Your task to perform on an android device: Where can I buy a nice beach umbrella? Image 0: 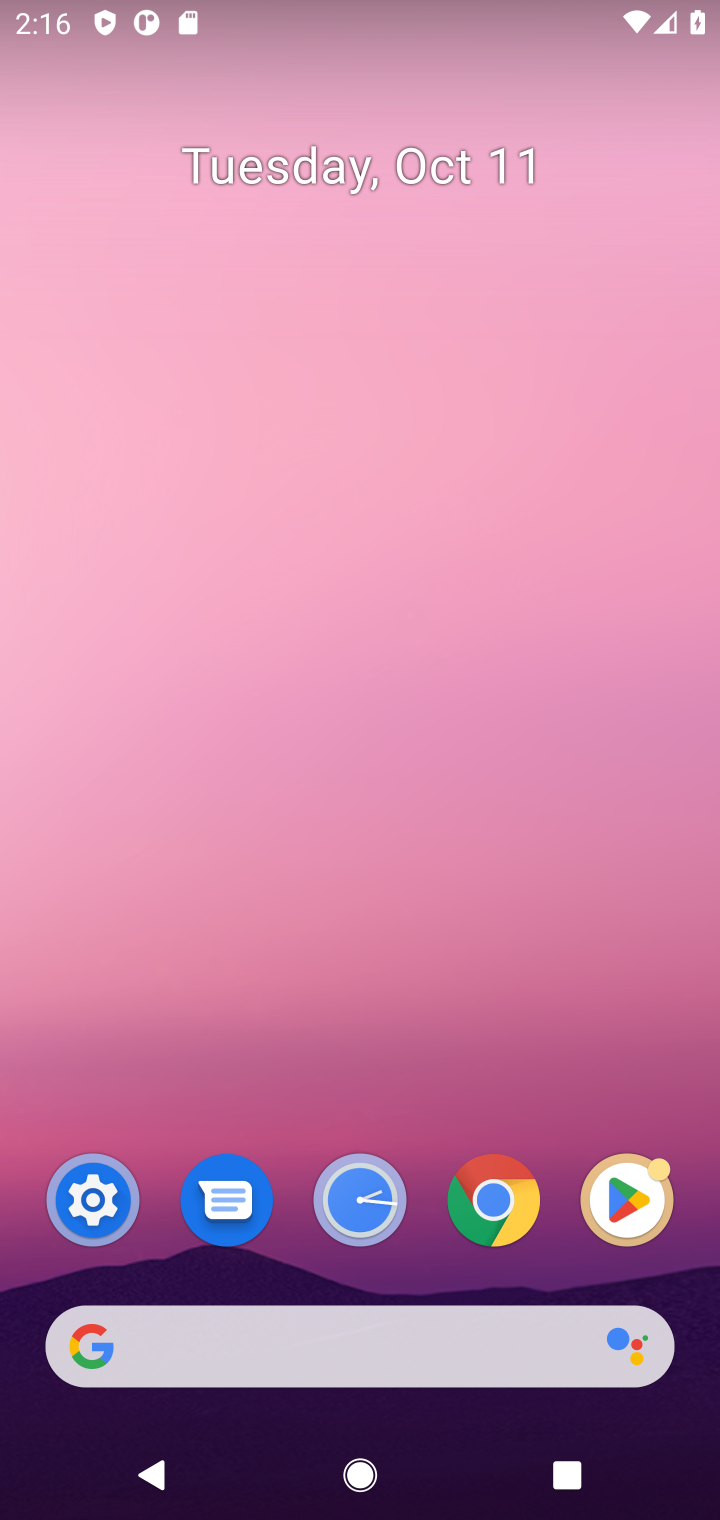
Step 0: click (495, 1220)
Your task to perform on an android device: Where can I buy a nice beach umbrella? Image 1: 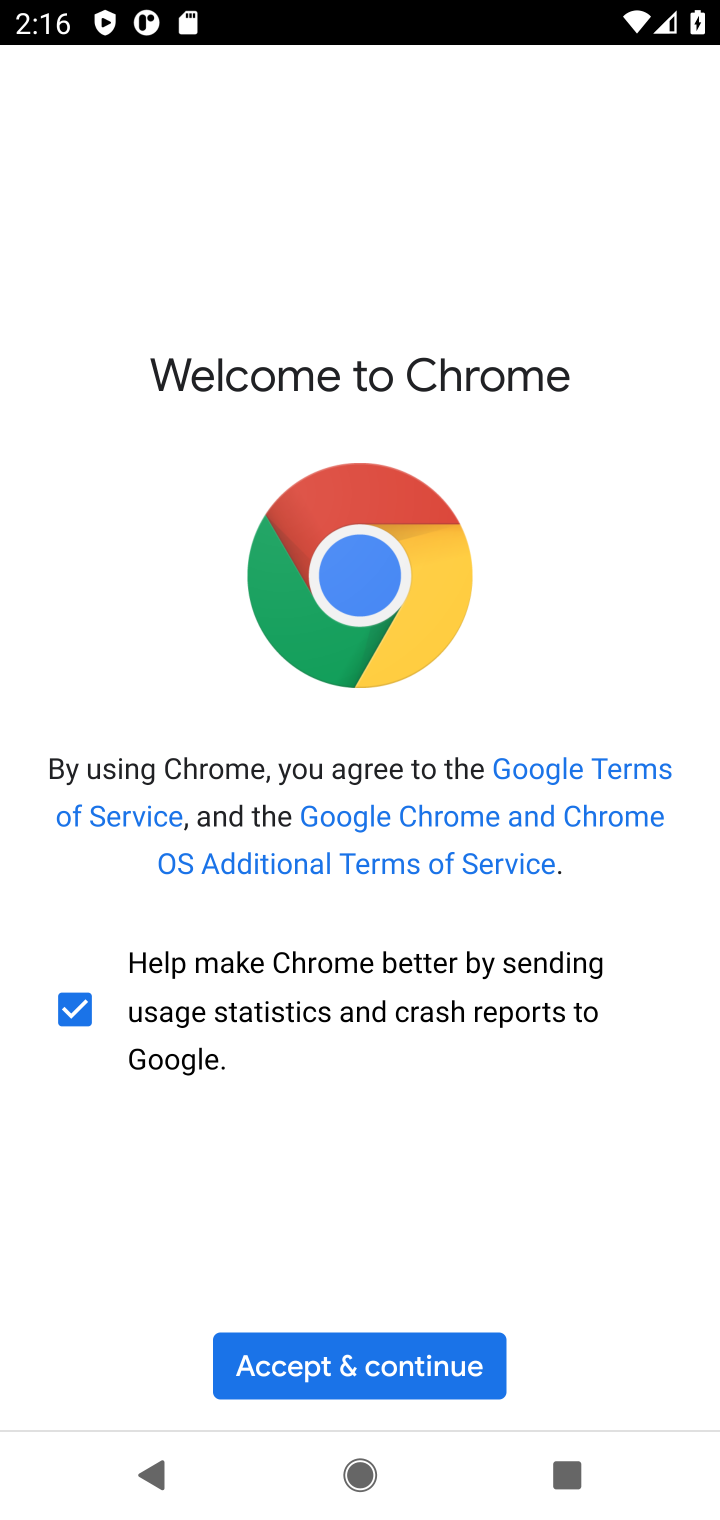
Step 1: click (351, 1371)
Your task to perform on an android device: Where can I buy a nice beach umbrella? Image 2: 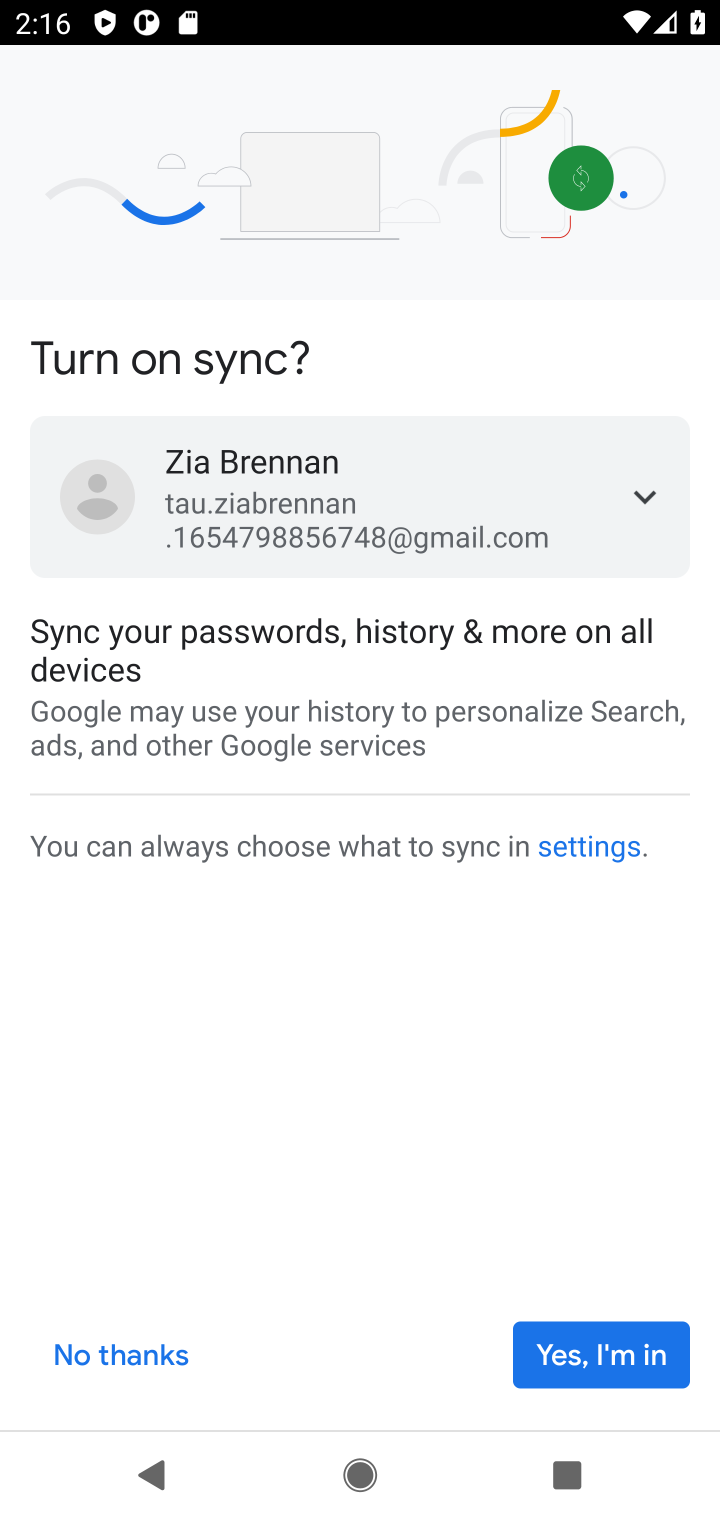
Step 2: click (623, 1330)
Your task to perform on an android device: Where can I buy a nice beach umbrella? Image 3: 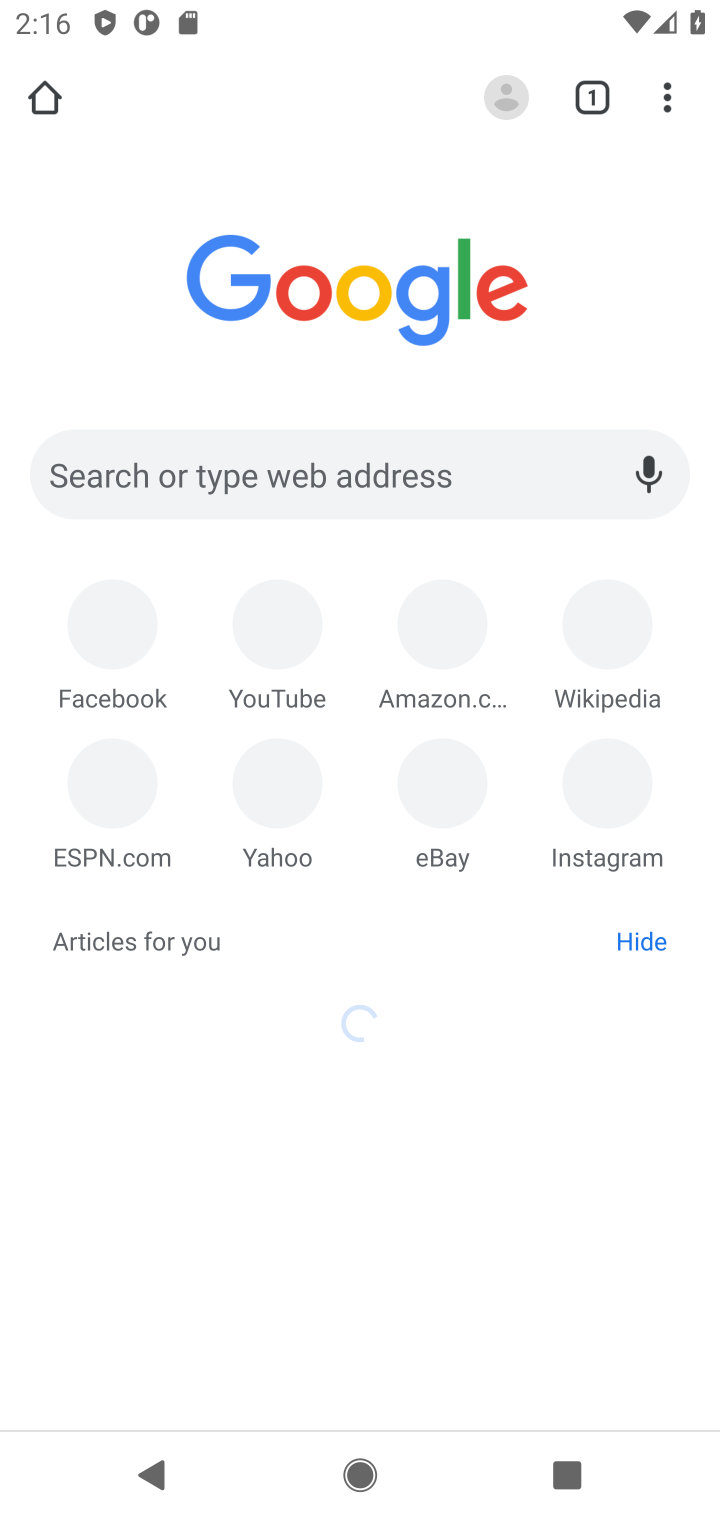
Step 3: click (276, 466)
Your task to perform on an android device: Where can I buy a nice beach umbrella? Image 4: 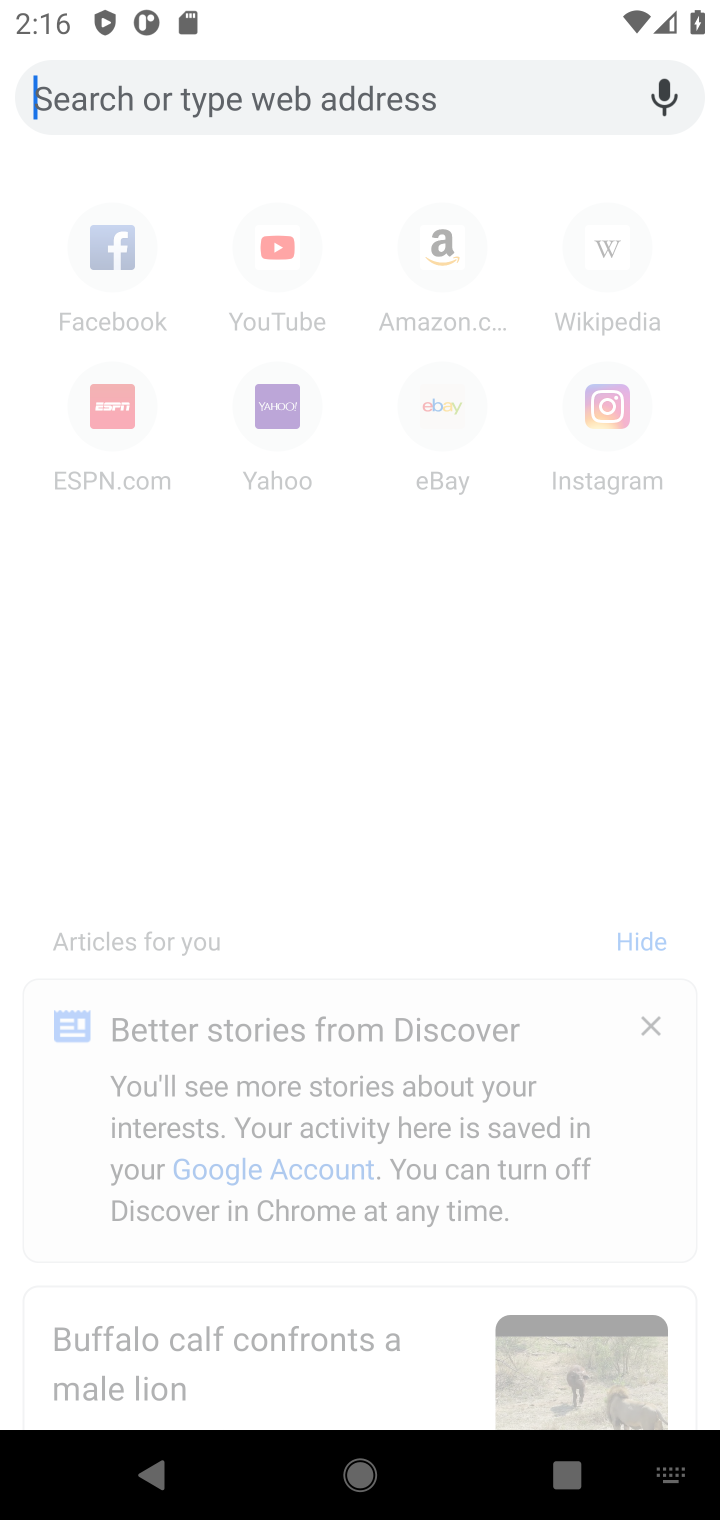
Step 4: type "Where can I buy a nice beach umbrella?"
Your task to perform on an android device: Where can I buy a nice beach umbrella? Image 5: 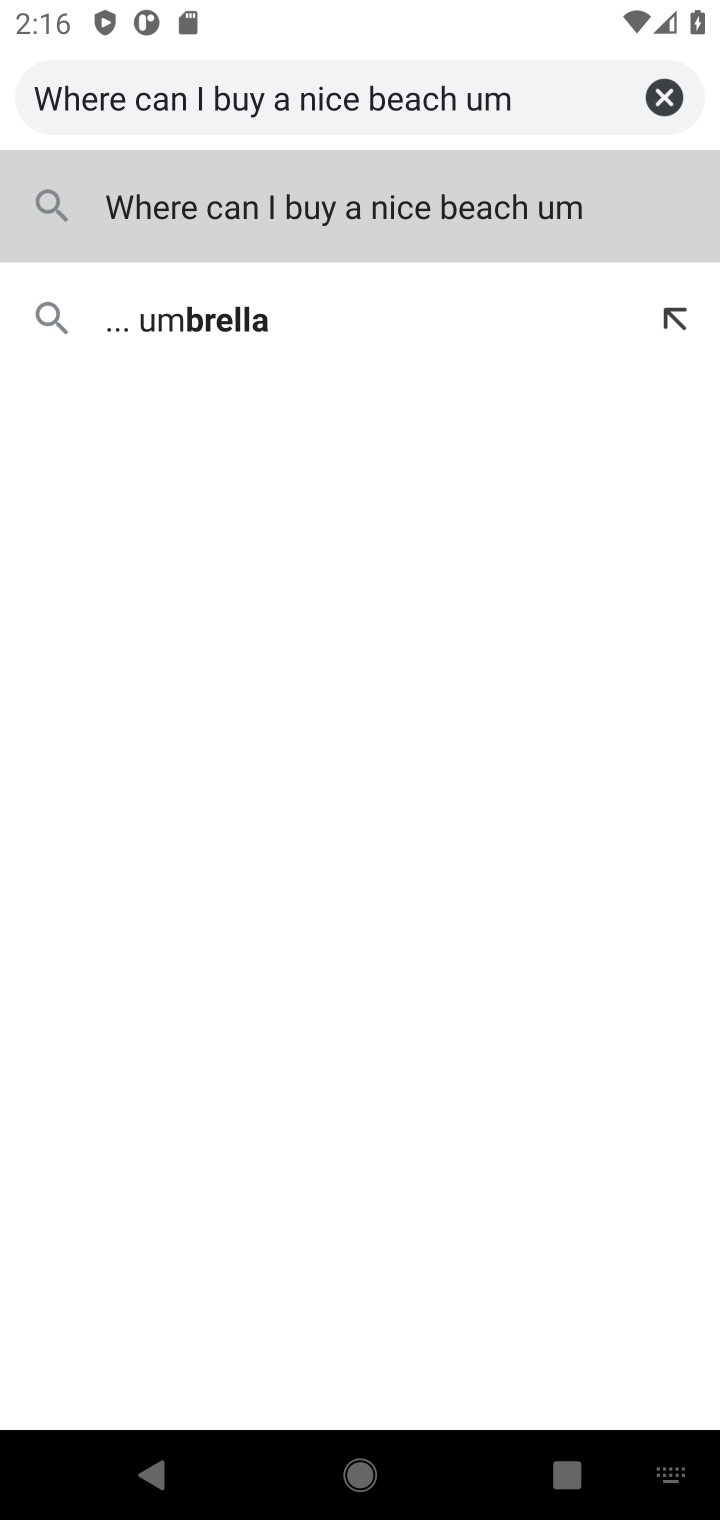
Step 5: type ""
Your task to perform on an android device: Where can I buy a nice beach umbrella? Image 6: 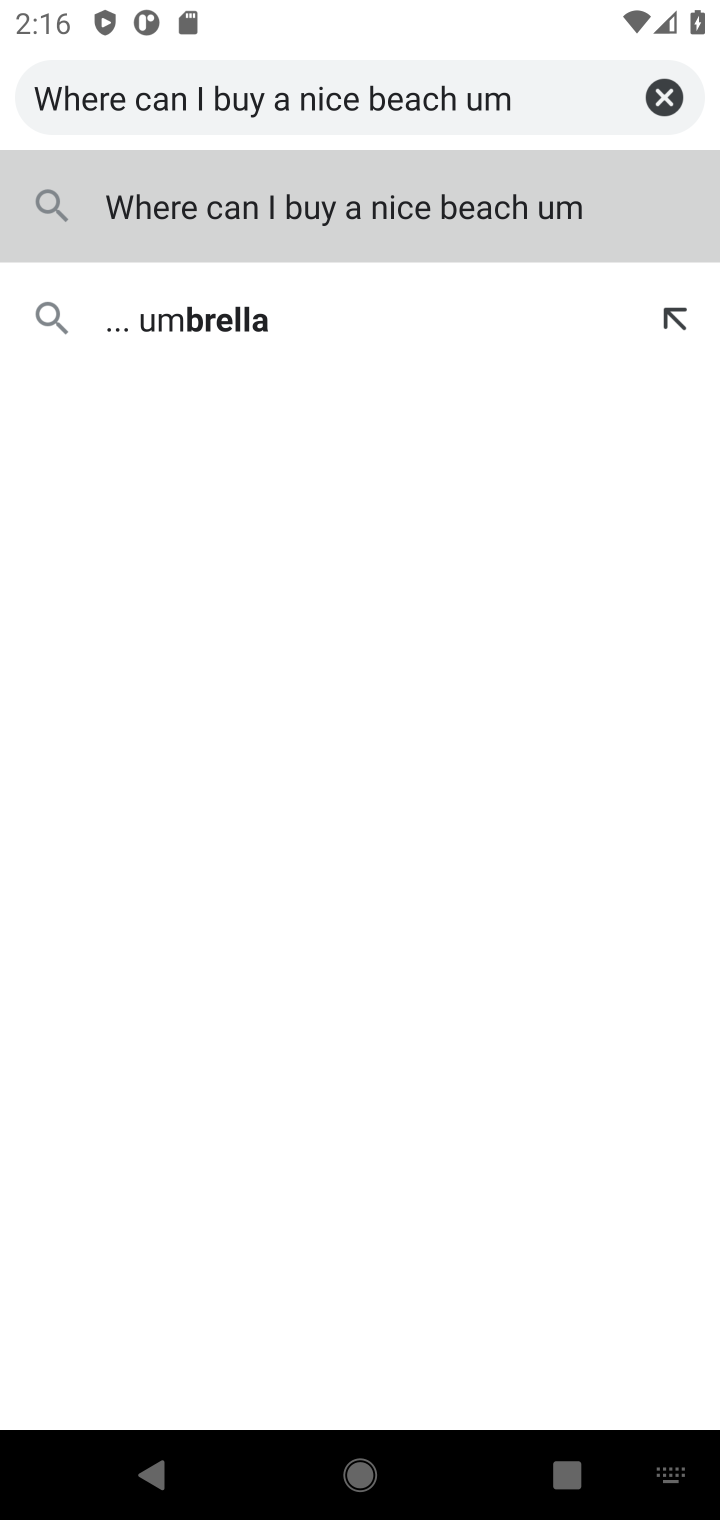
Step 6: click (273, 299)
Your task to perform on an android device: Where can I buy a nice beach umbrella? Image 7: 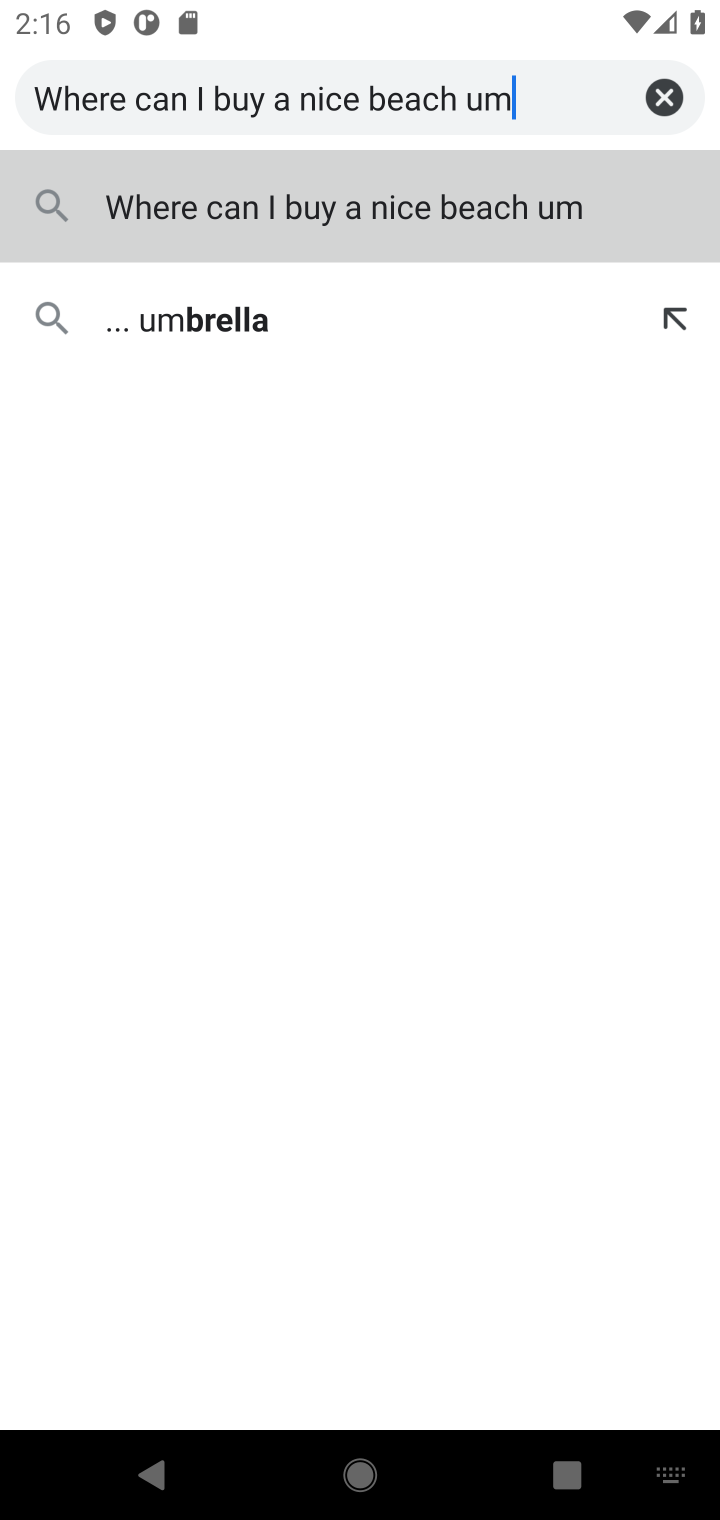
Step 7: click (270, 327)
Your task to perform on an android device: Where can I buy a nice beach umbrella? Image 8: 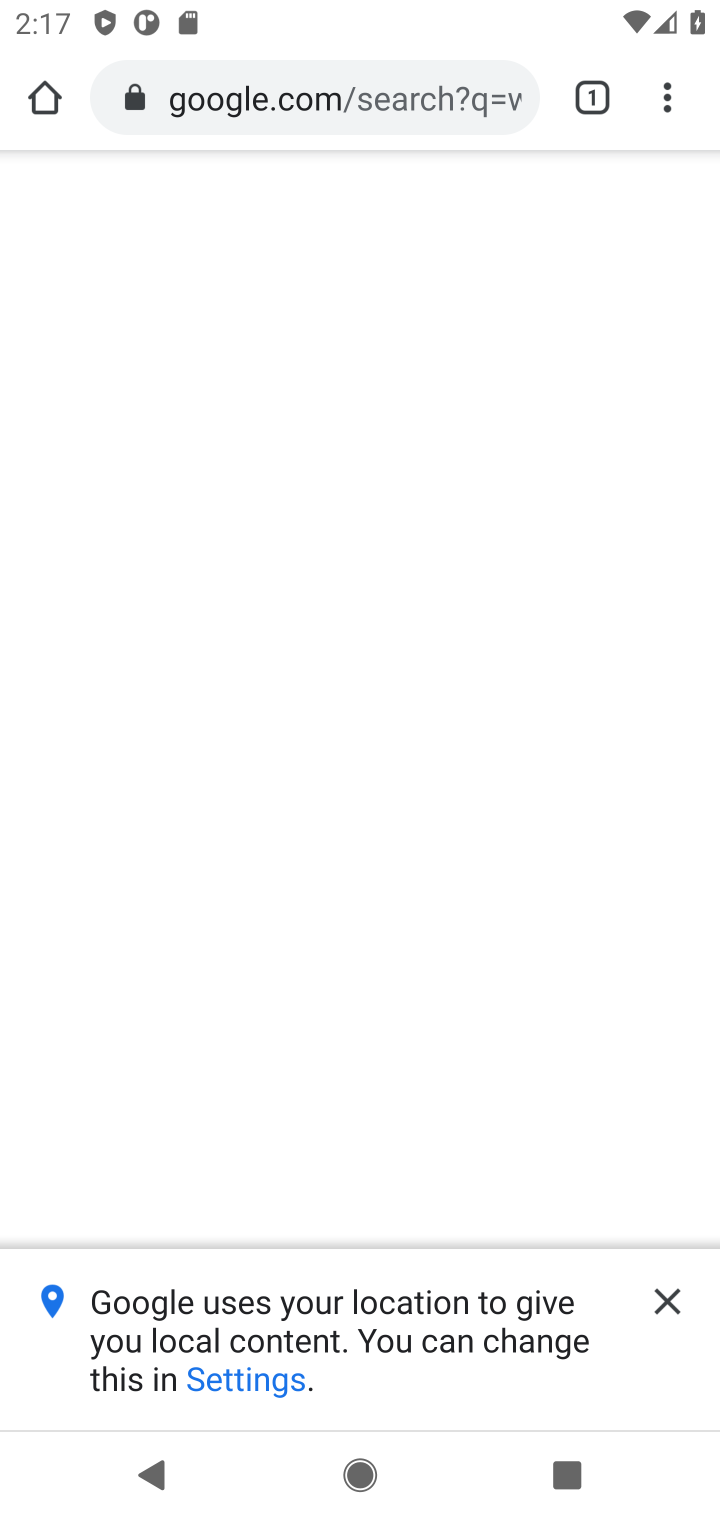
Step 8: click (672, 1317)
Your task to perform on an android device: Where can I buy a nice beach umbrella? Image 9: 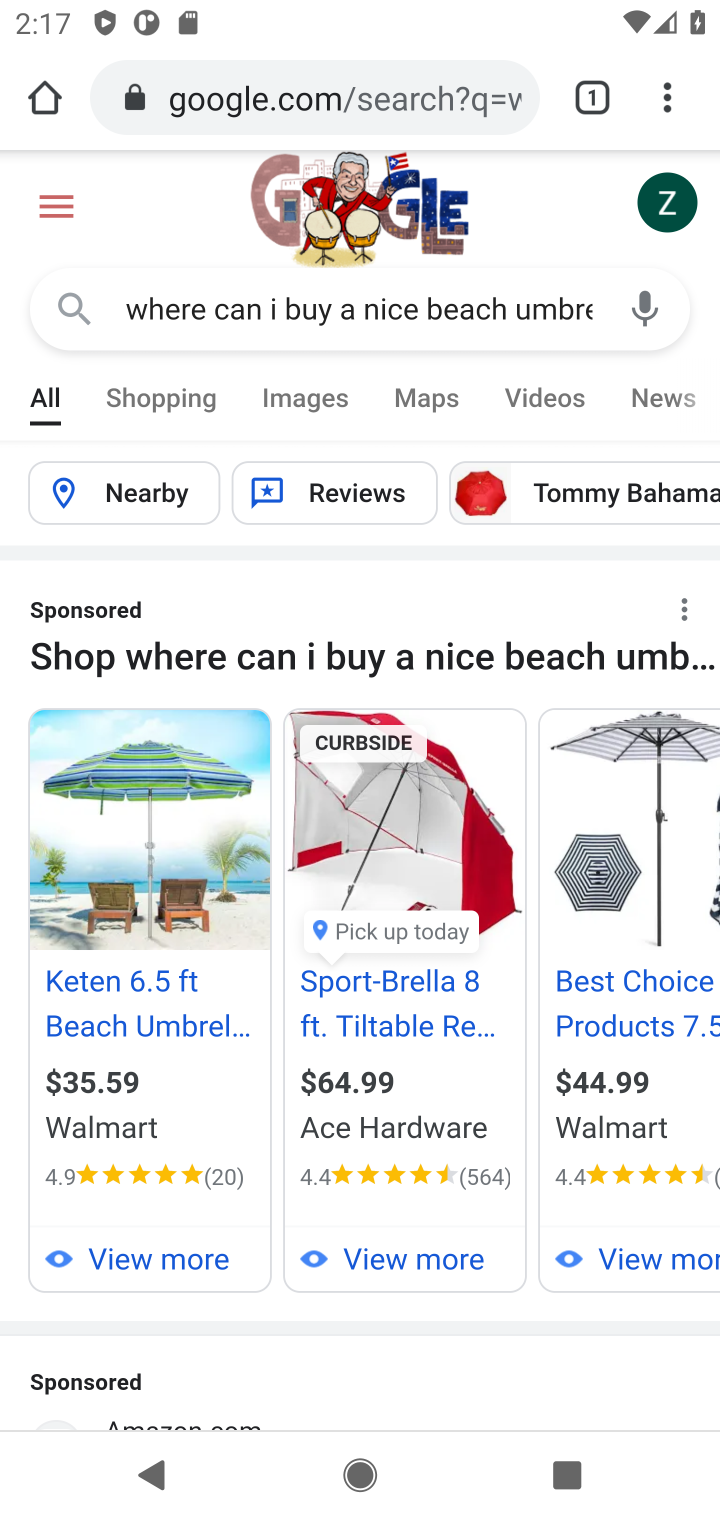
Step 9: drag from (323, 1332) to (276, 604)
Your task to perform on an android device: Where can I buy a nice beach umbrella? Image 10: 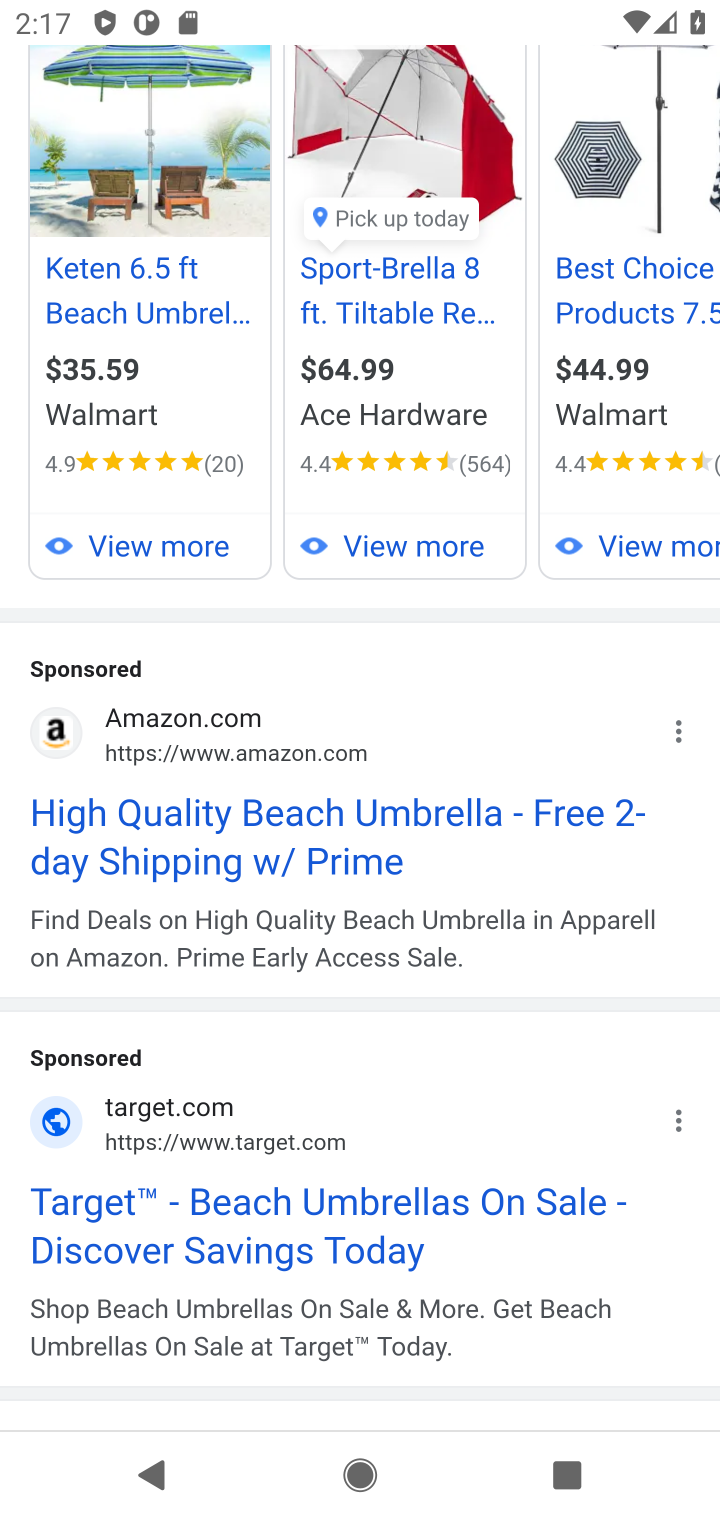
Step 10: drag from (291, 766) to (305, 632)
Your task to perform on an android device: Where can I buy a nice beach umbrella? Image 11: 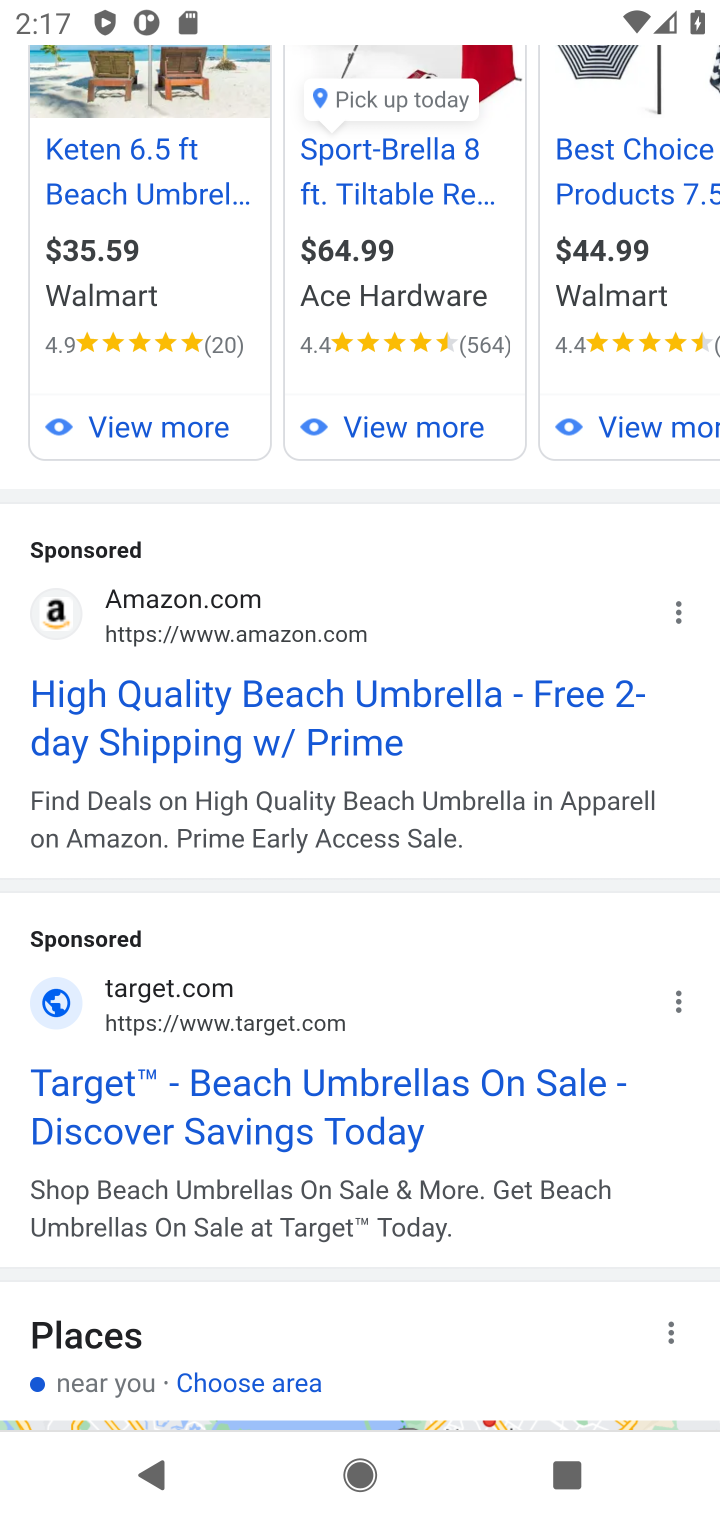
Step 11: drag from (303, 1208) to (308, 623)
Your task to perform on an android device: Where can I buy a nice beach umbrella? Image 12: 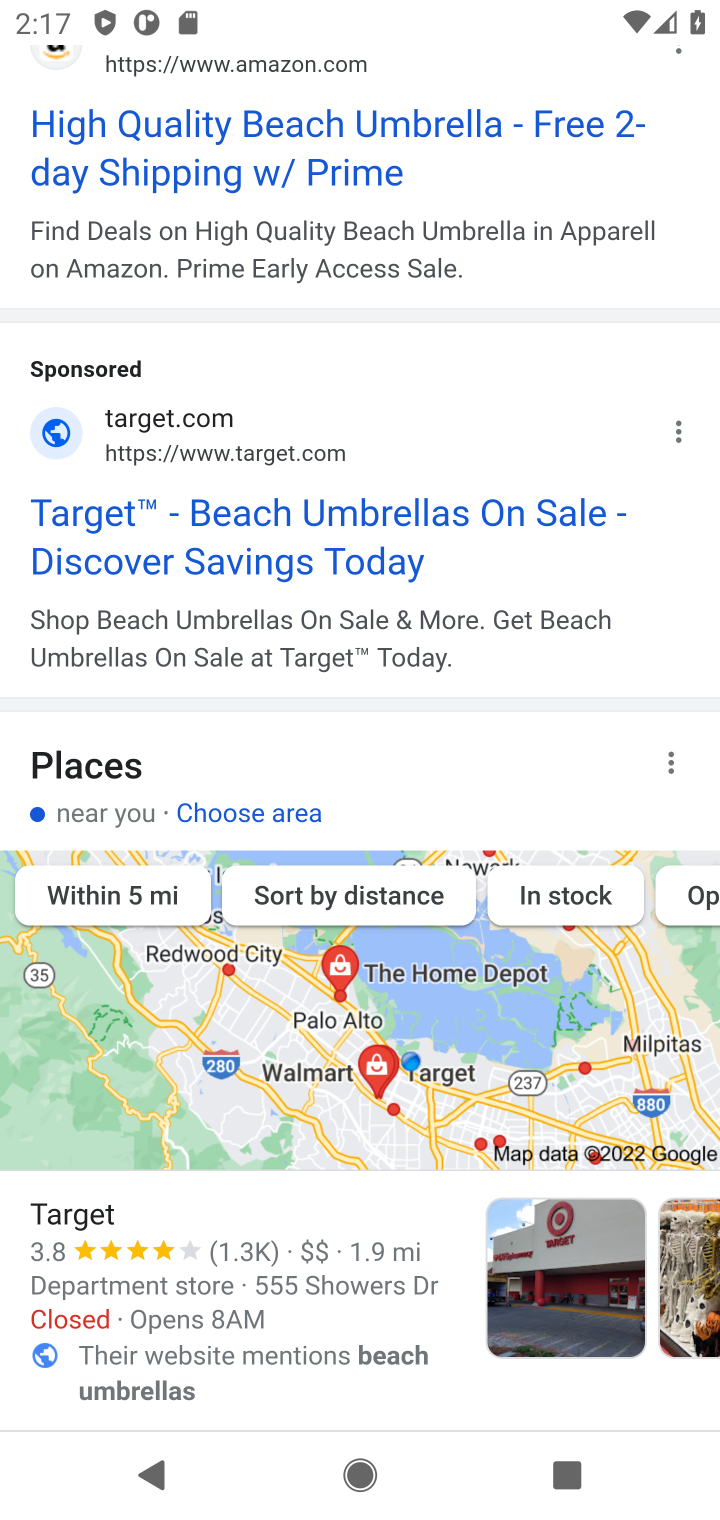
Step 12: click (297, 526)
Your task to perform on an android device: Where can I buy a nice beach umbrella? Image 13: 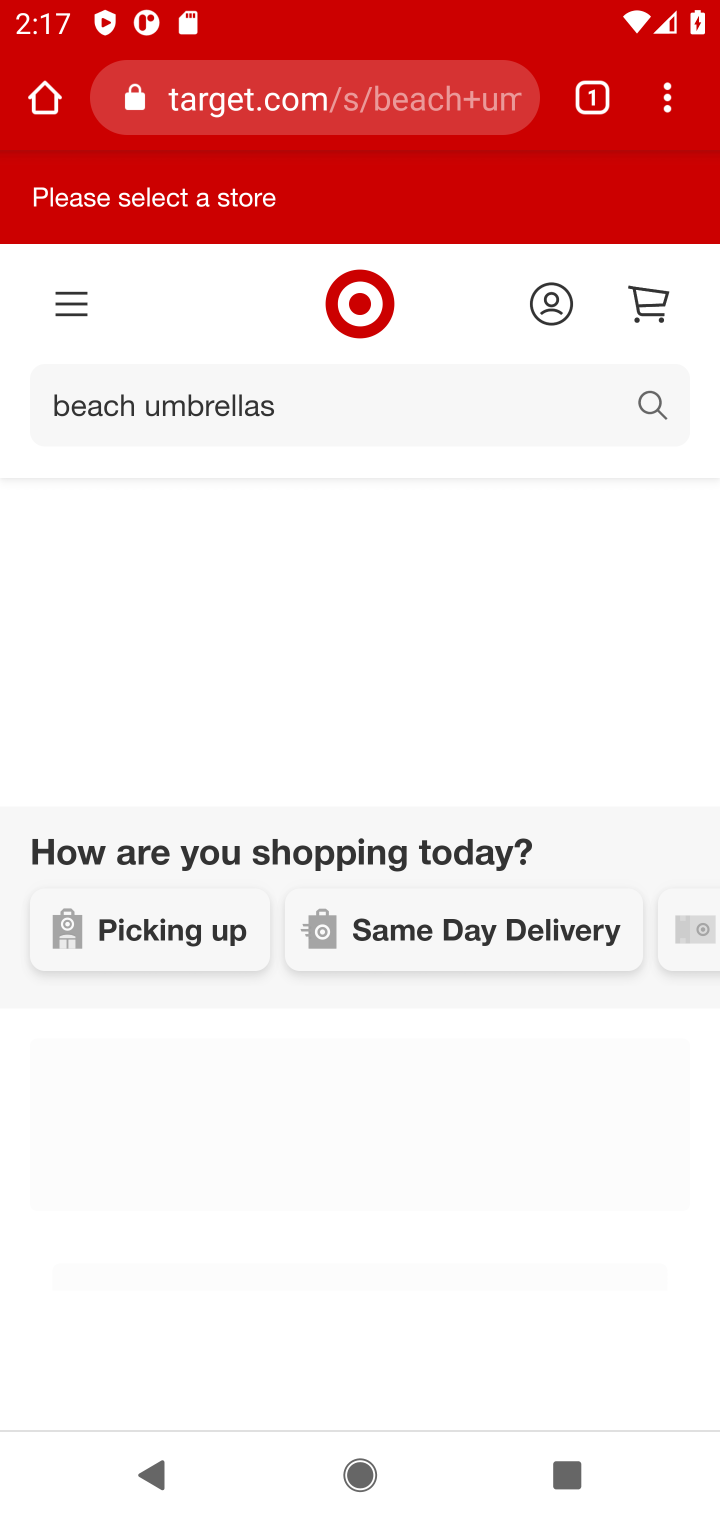
Step 13: drag from (389, 819) to (438, 426)
Your task to perform on an android device: Where can I buy a nice beach umbrella? Image 14: 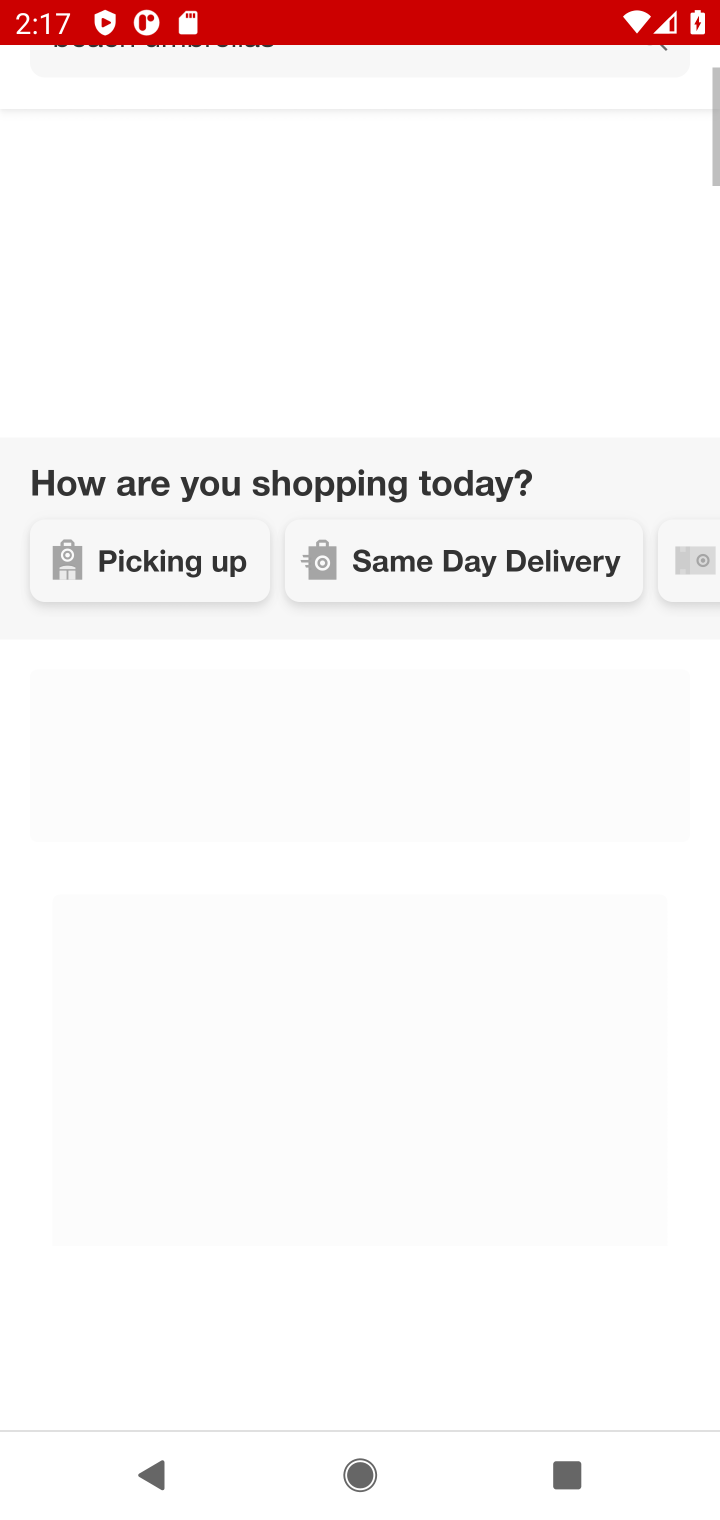
Step 14: drag from (486, 1018) to (468, 472)
Your task to perform on an android device: Where can I buy a nice beach umbrella? Image 15: 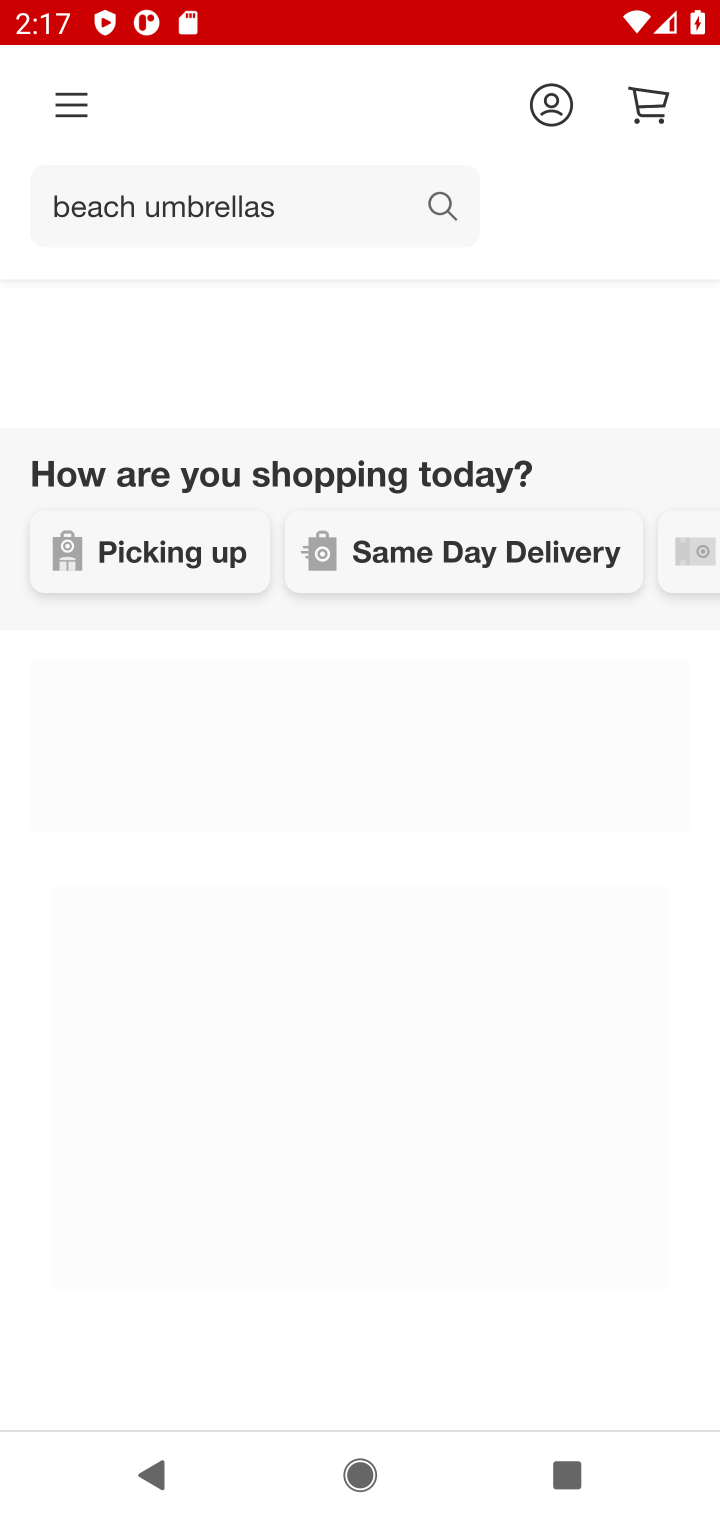
Step 15: drag from (434, 624) to (421, 517)
Your task to perform on an android device: Where can I buy a nice beach umbrella? Image 16: 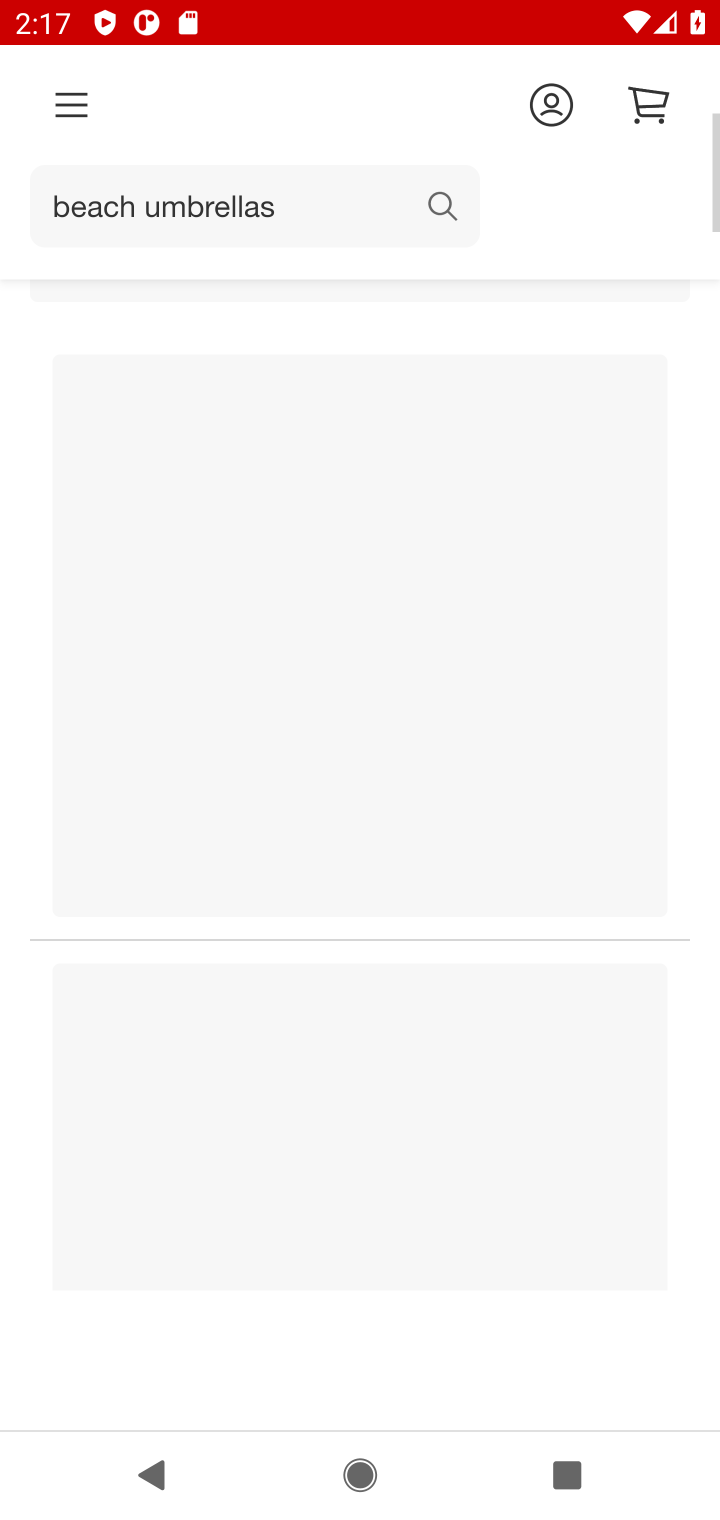
Step 16: click (469, 677)
Your task to perform on an android device: Where can I buy a nice beach umbrella? Image 17: 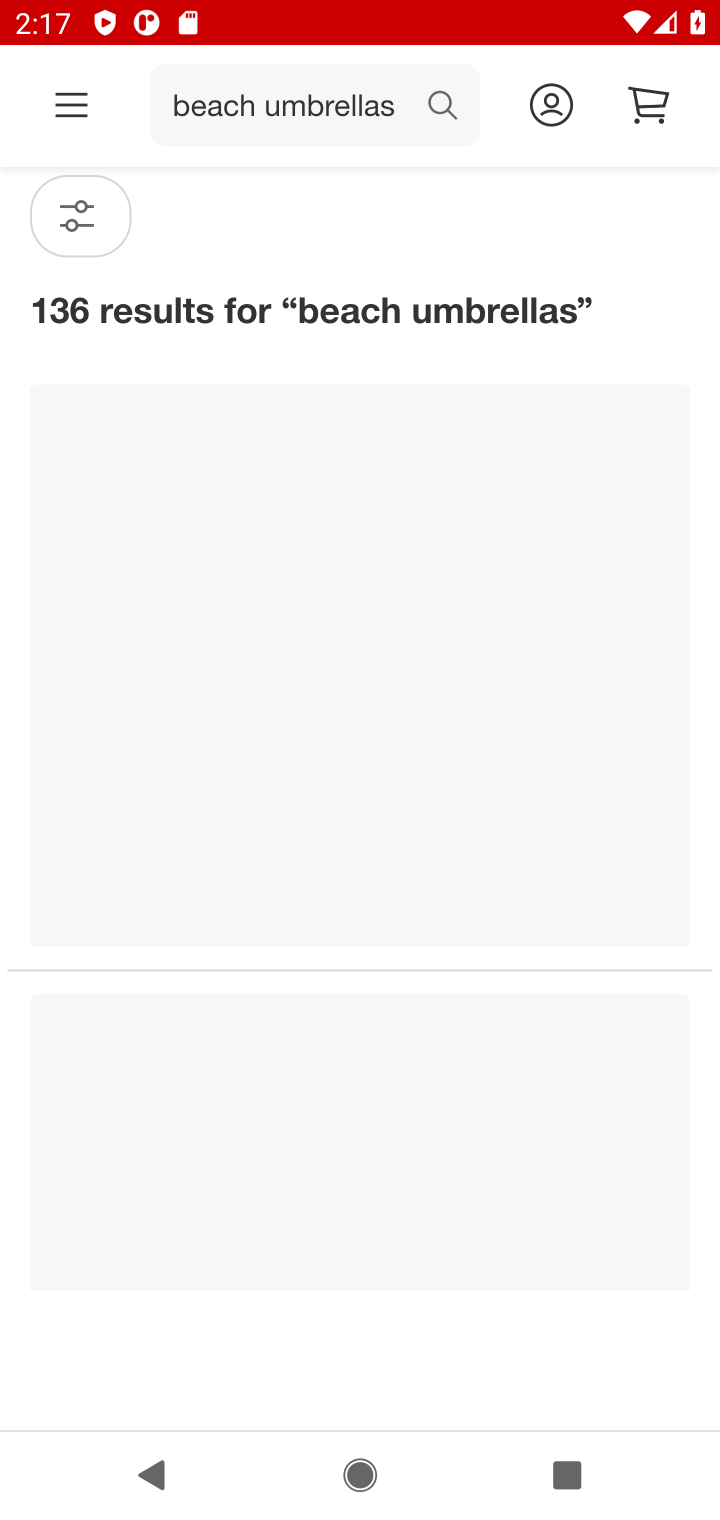
Step 17: press back button
Your task to perform on an android device: Where can I buy a nice beach umbrella? Image 18: 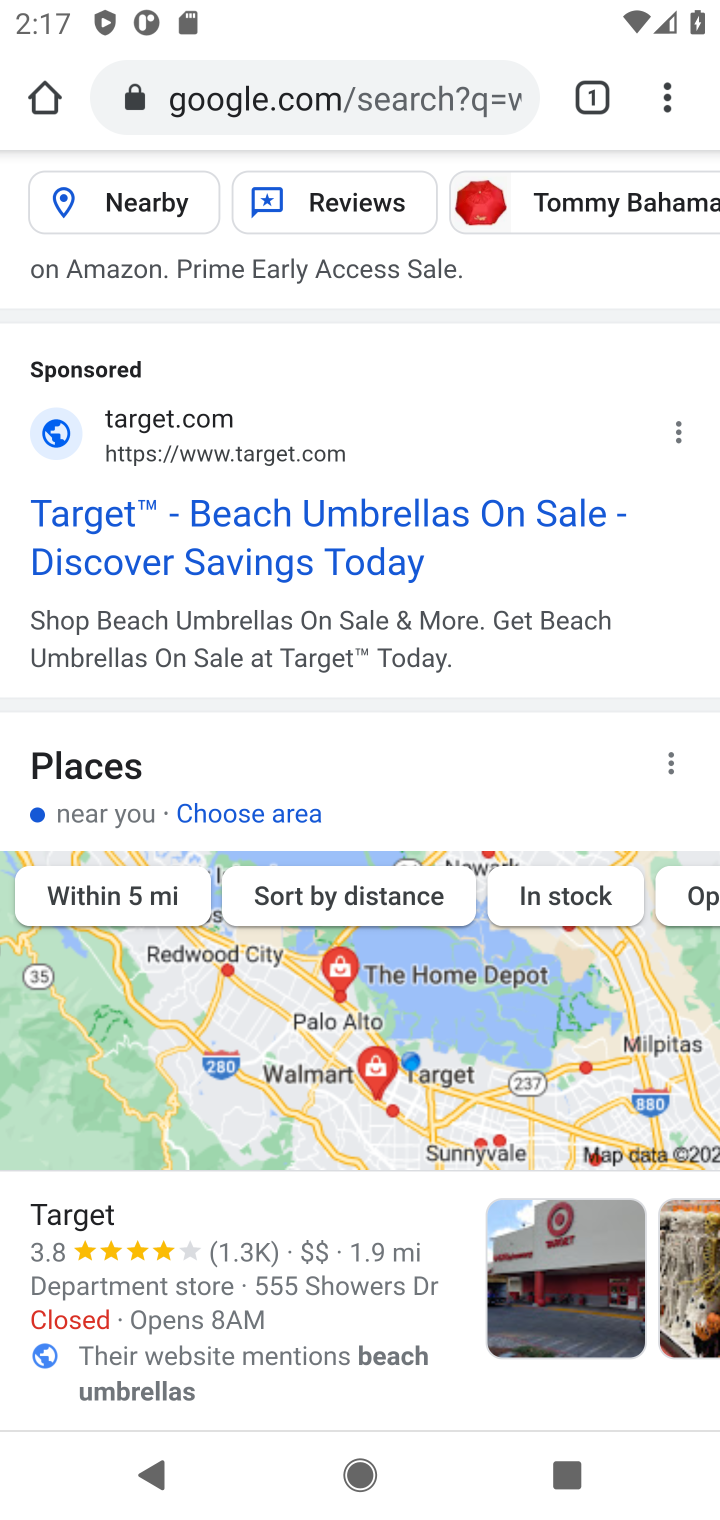
Step 18: drag from (412, 1135) to (473, 408)
Your task to perform on an android device: Where can I buy a nice beach umbrella? Image 19: 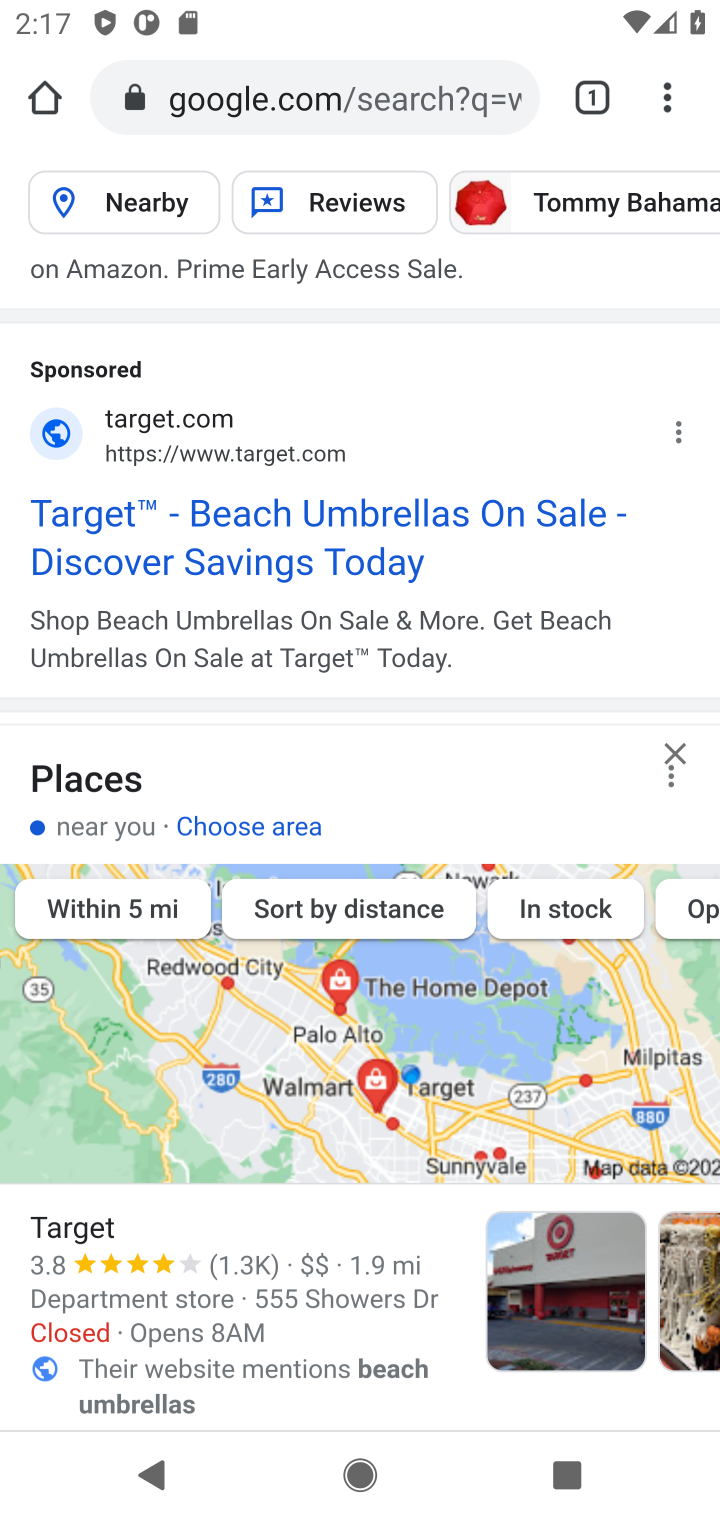
Step 19: drag from (427, 708) to (454, 453)
Your task to perform on an android device: Where can I buy a nice beach umbrella? Image 20: 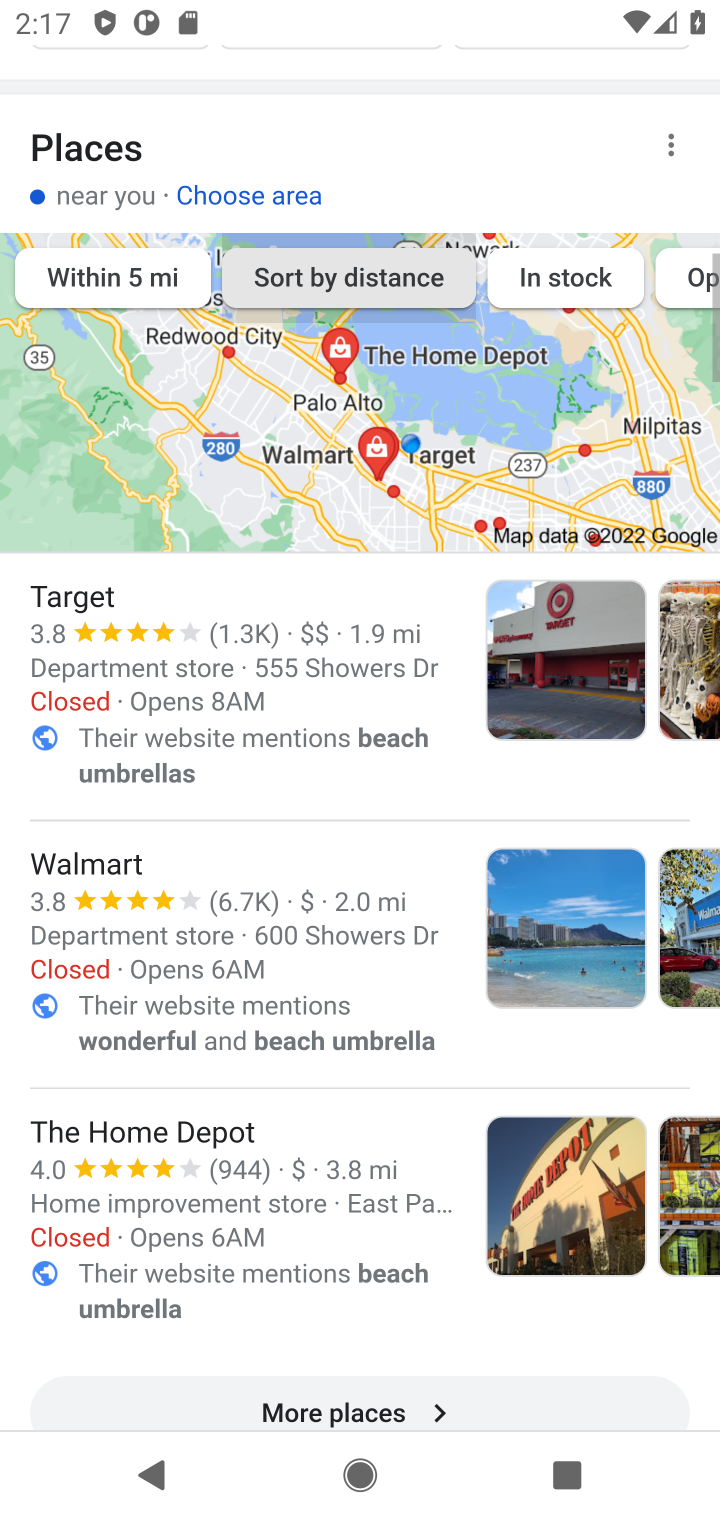
Step 20: drag from (518, 1008) to (574, 507)
Your task to perform on an android device: Where can I buy a nice beach umbrella? Image 21: 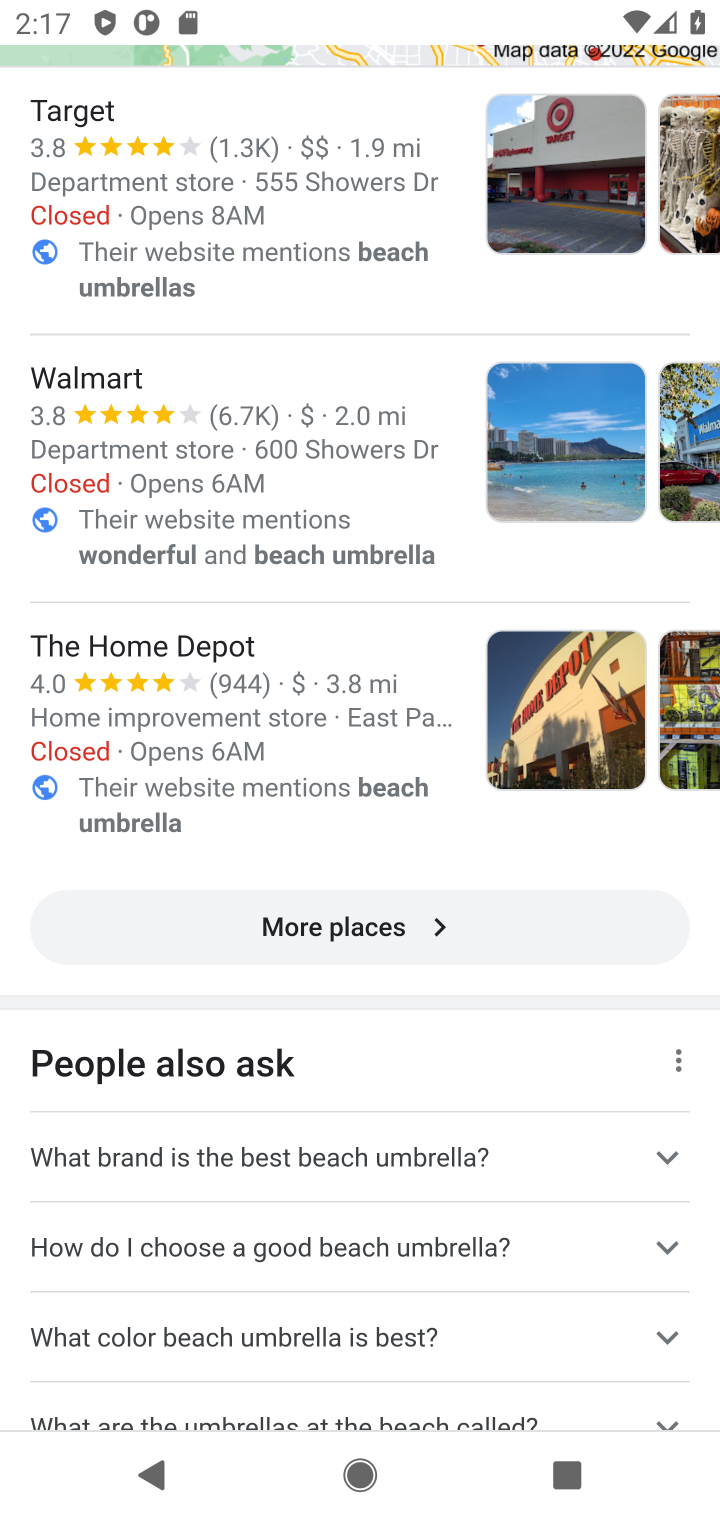
Step 21: drag from (415, 778) to (421, 406)
Your task to perform on an android device: Where can I buy a nice beach umbrella? Image 22: 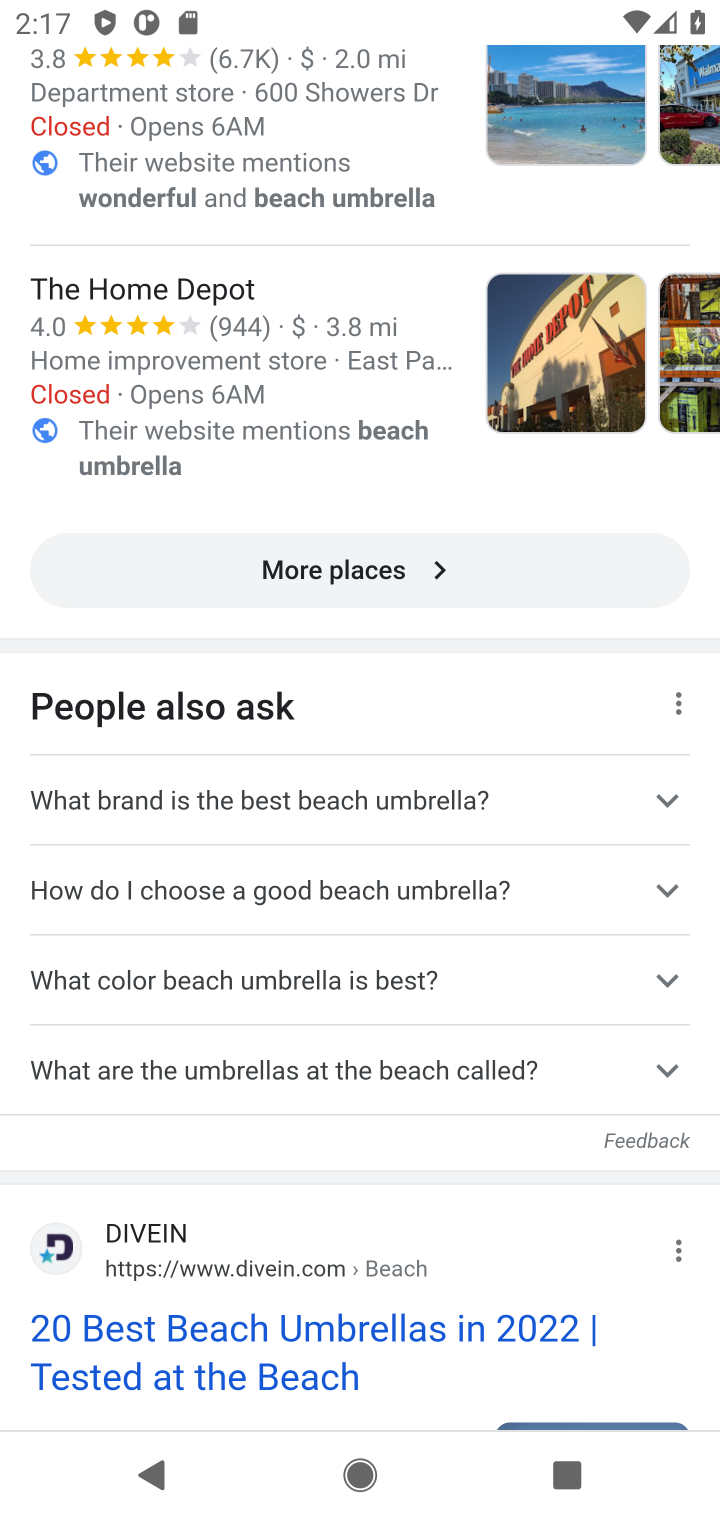
Step 22: click (282, 1328)
Your task to perform on an android device: Where can I buy a nice beach umbrella? Image 23: 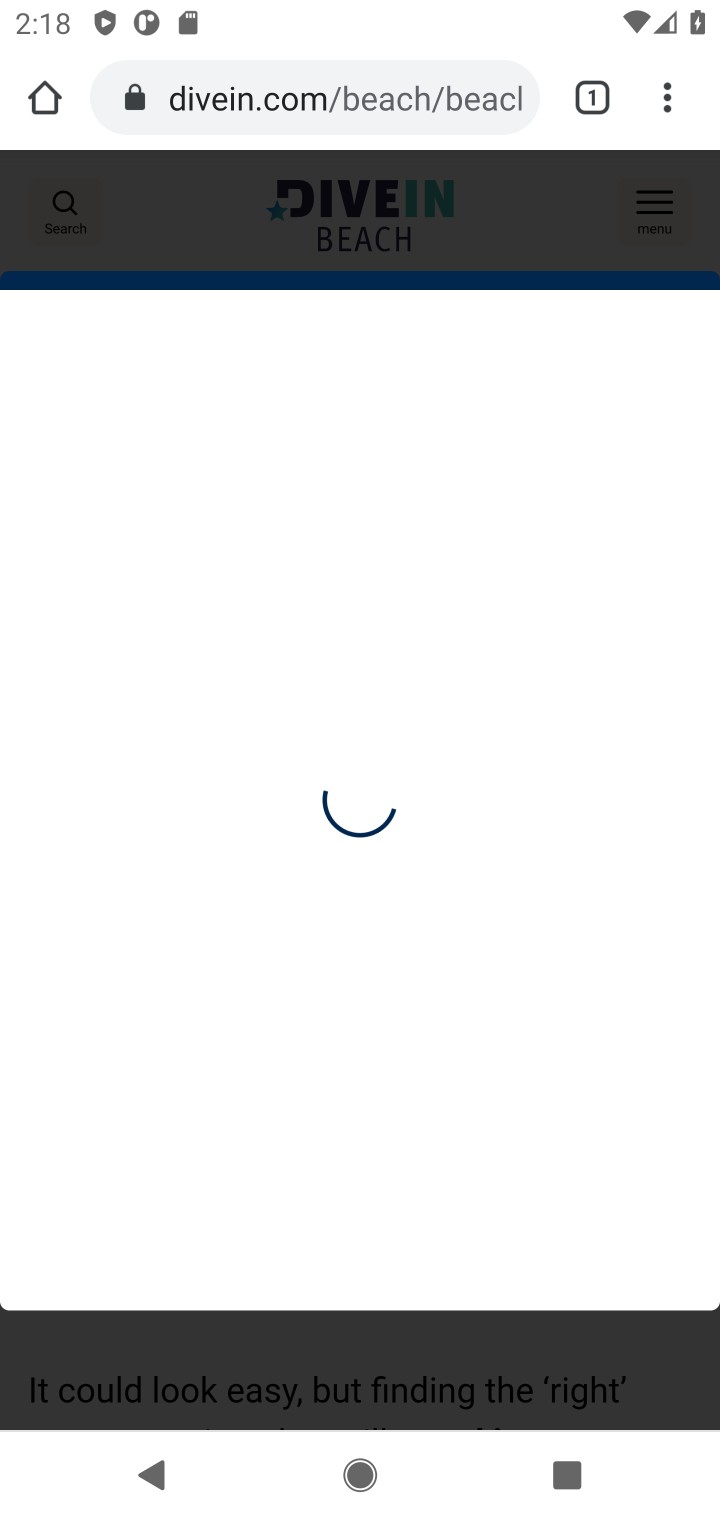
Step 23: drag from (310, 959) to (369, 482)
Your task to perform on an android device: Where can I buy a nice beach umbrella? Image 24: 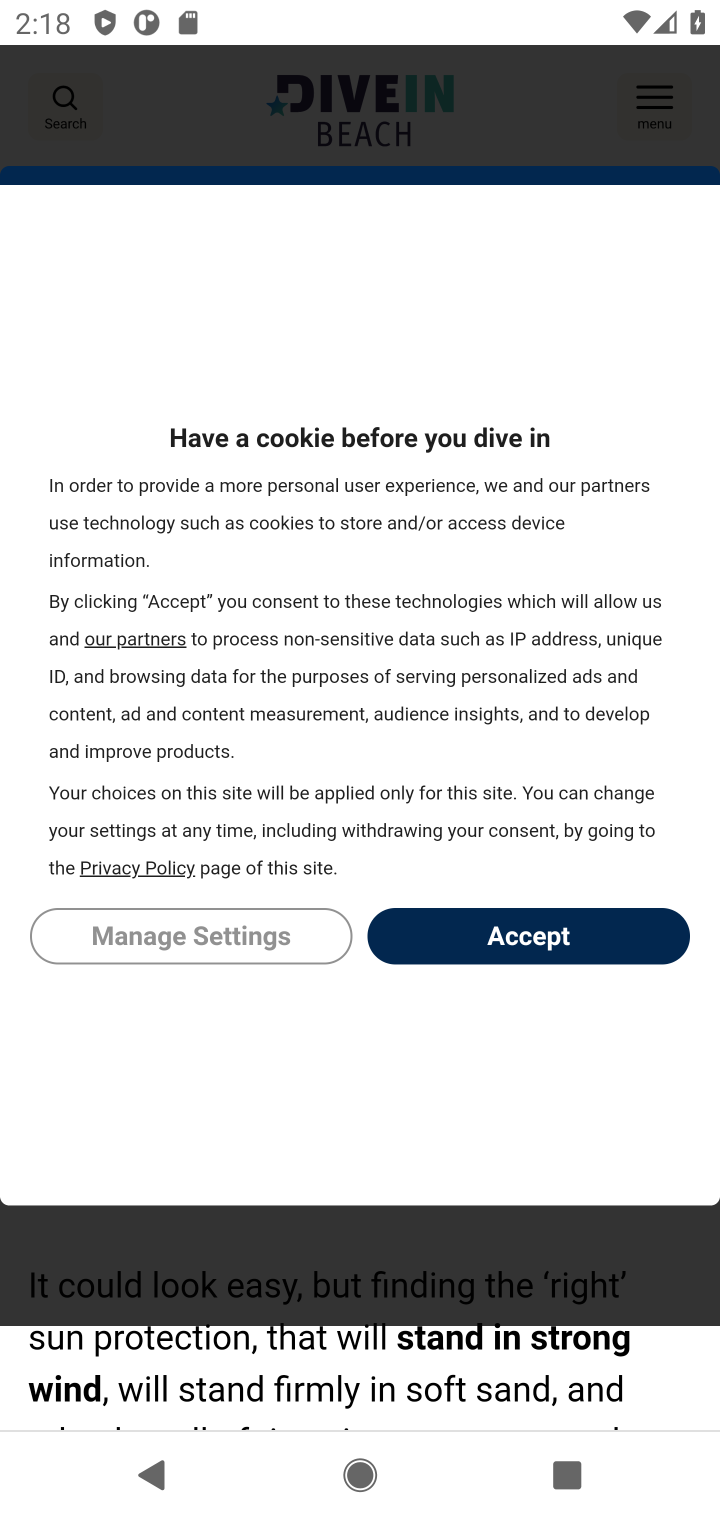
Step 24: click (502, 960)
Your task to perform on an android device: Where can I buy a nice beach umbrella? Image 25: 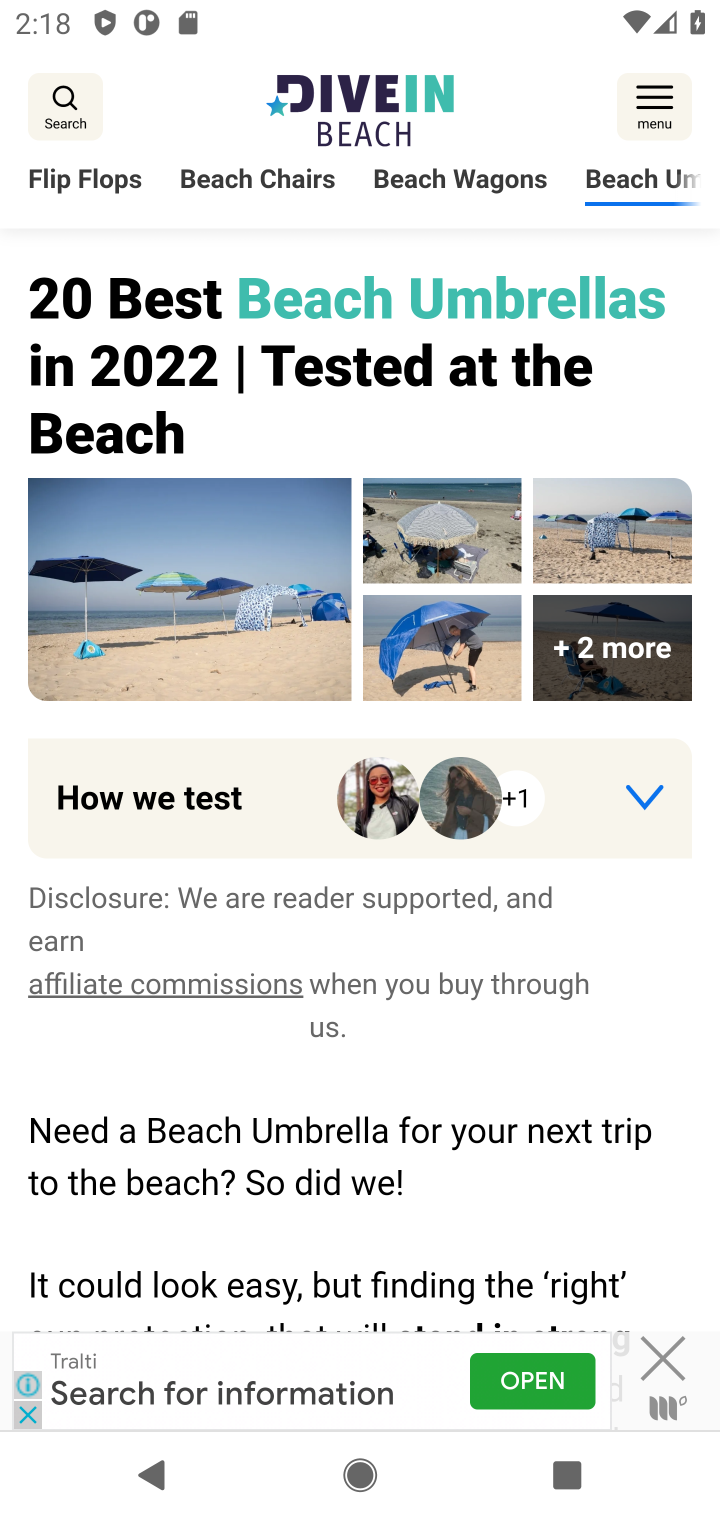
Step 25: drag from (569, 1049) to (570, 497)
Your task to perform on an android device: Where can I buy a nice beach umbrella? Image 26: 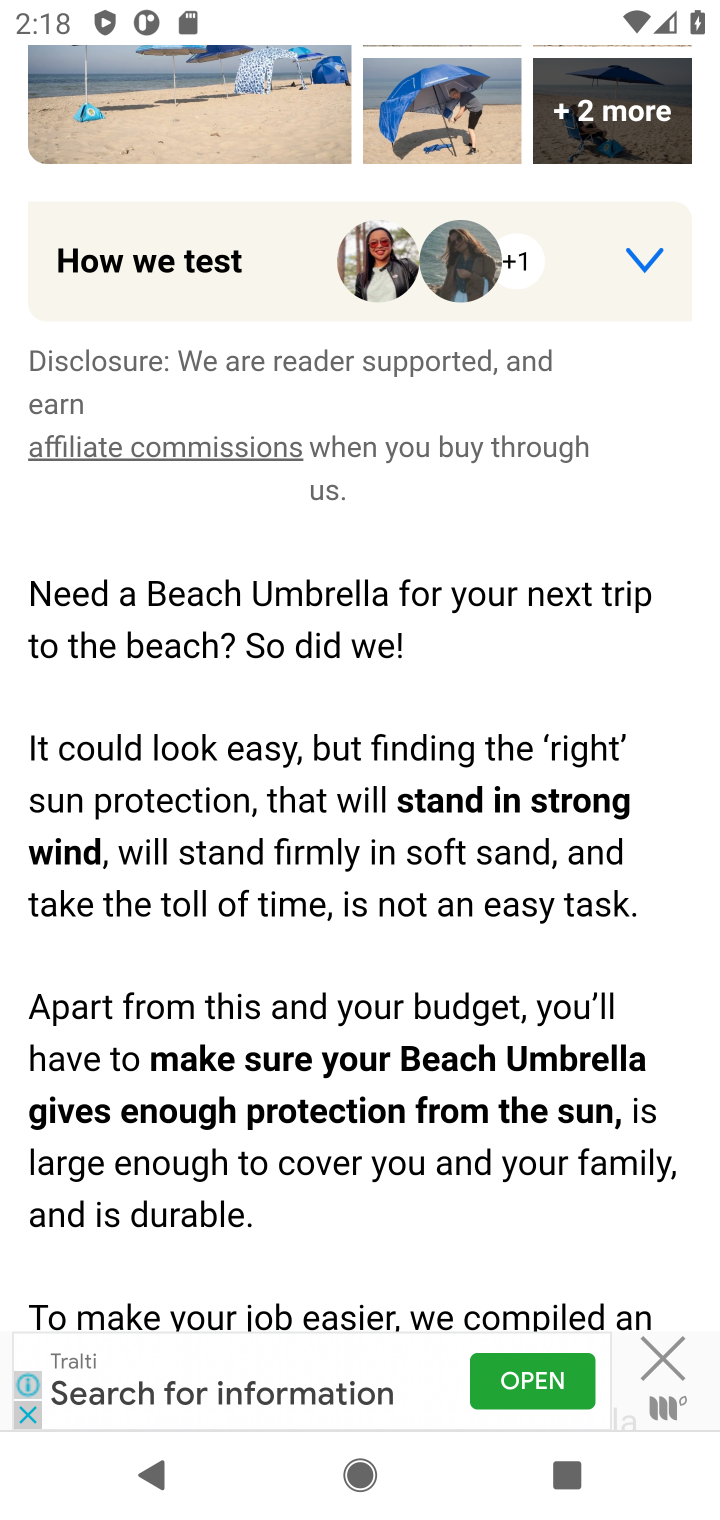
Step 26: click (705, 340)
Your task to perform on an android device: Where can I buy a nice beach umbrella? Image 27: 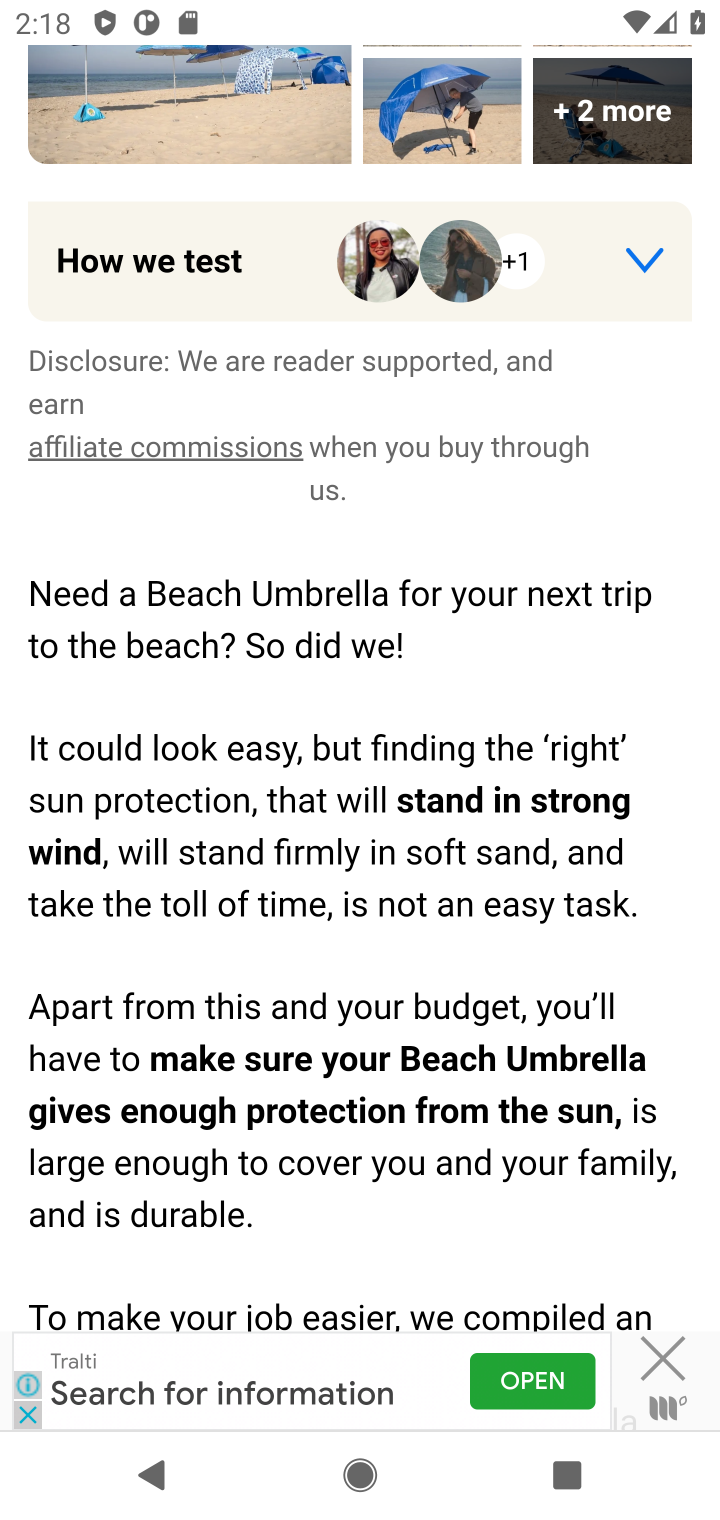
Step 27: drag from (543, 792) to (576, 272)
Your task to perform on an android device: Where can I buy a nice beach umbrella? Image 28: 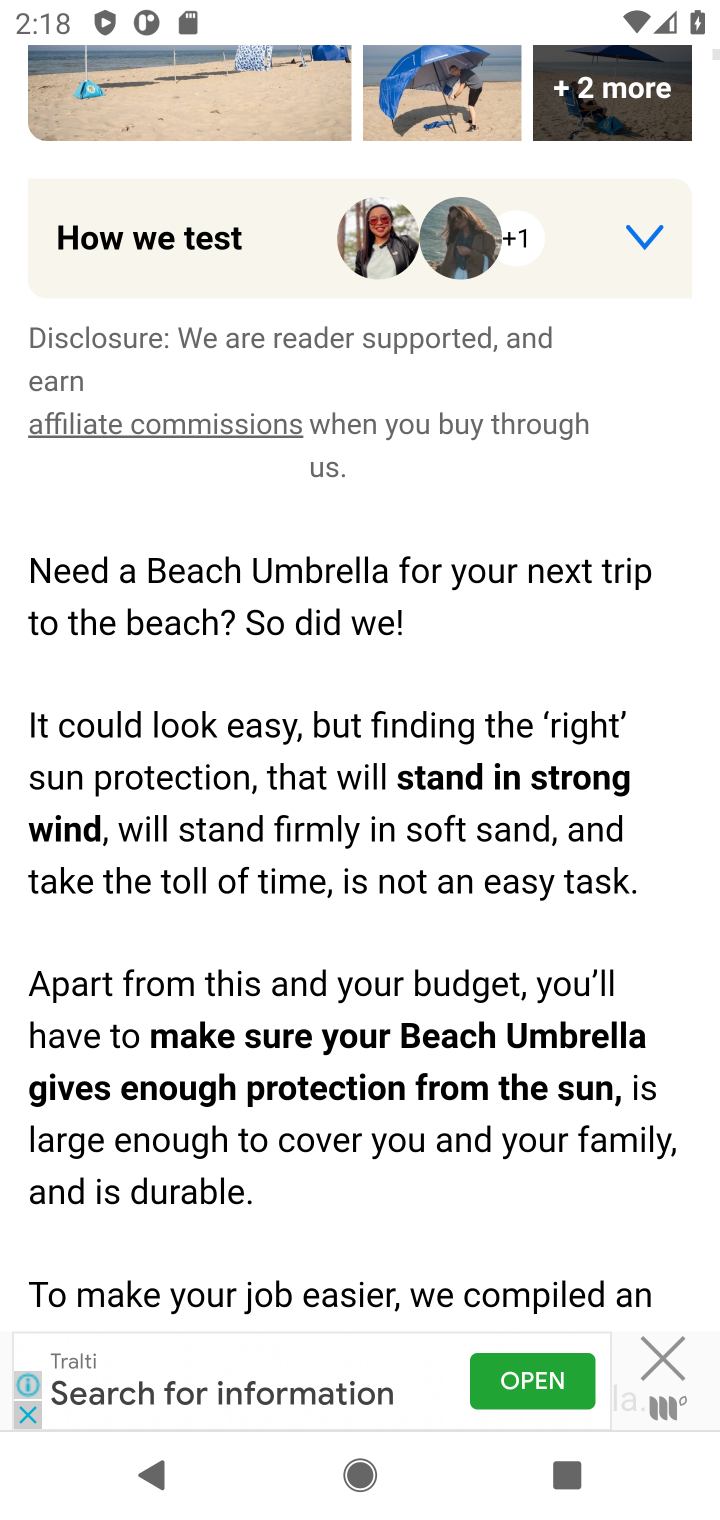
Step 28: drag from (535, 474) to (398, 480)
Your task to perform on an android device: Where can I buy a nice beach umbrella? Image 29: 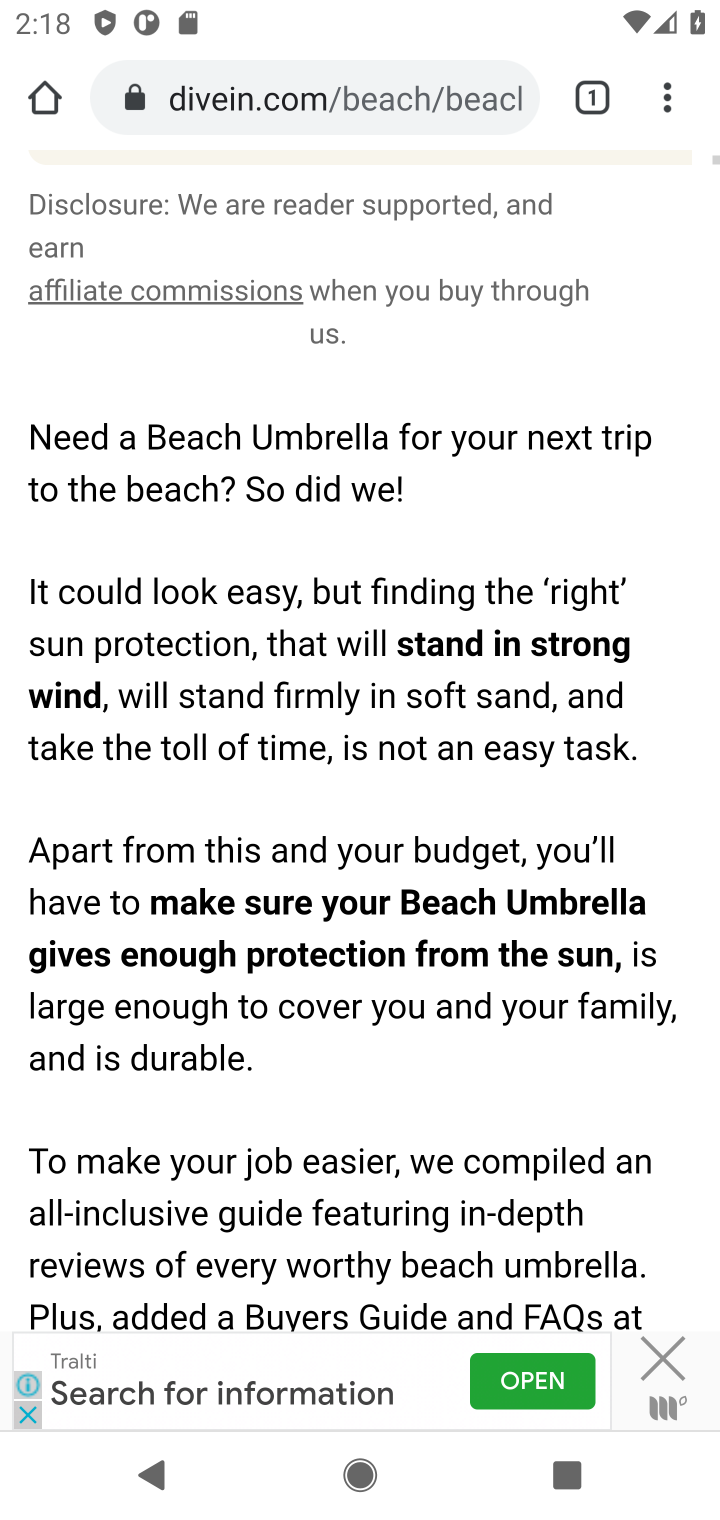
Step 29: click (388, 437)
Your task to perform on an android device: Where can I buy a nice beach umbrella? Image 30: 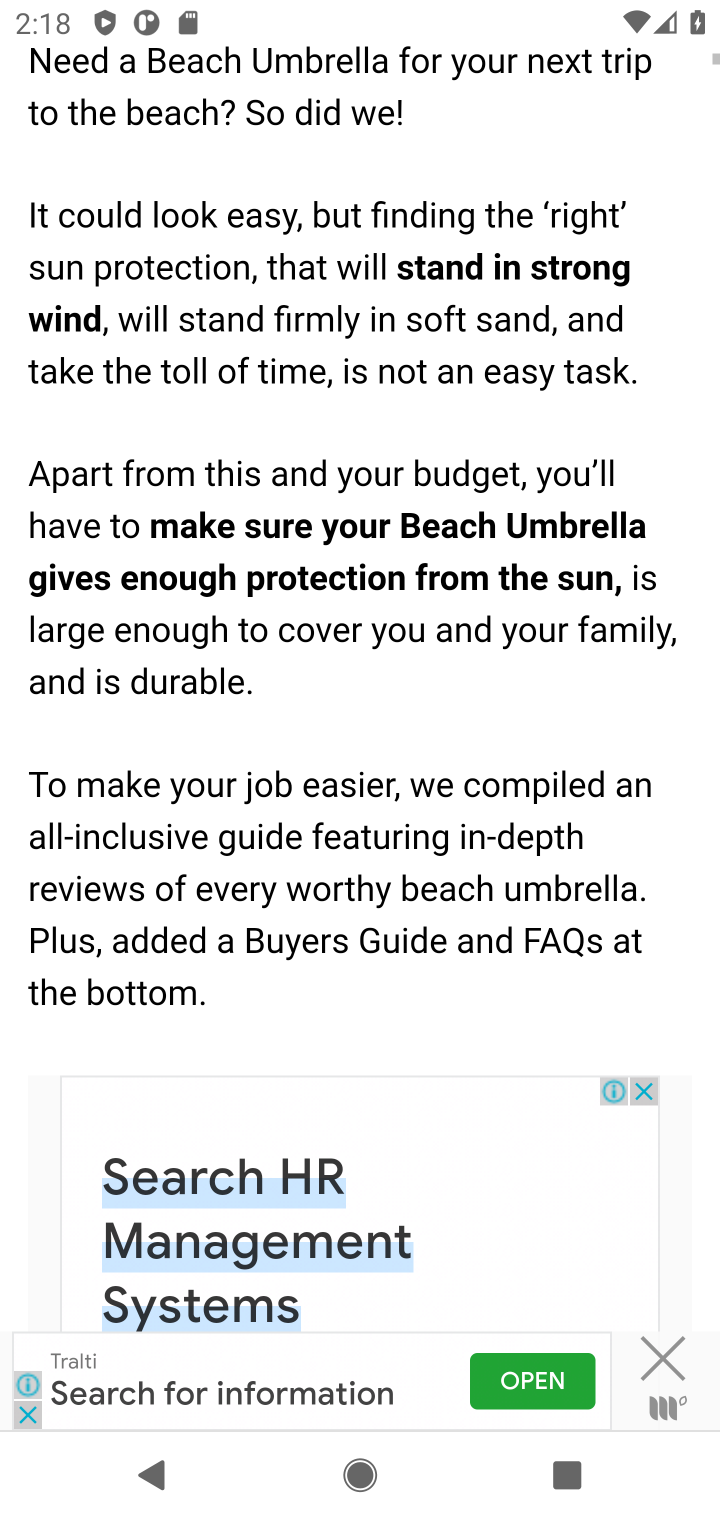
Step 30: drag from (479, 417) to (512, 334)
Your task to perform on an android device: Where can I buy a nice beach umbrella? Image 31: 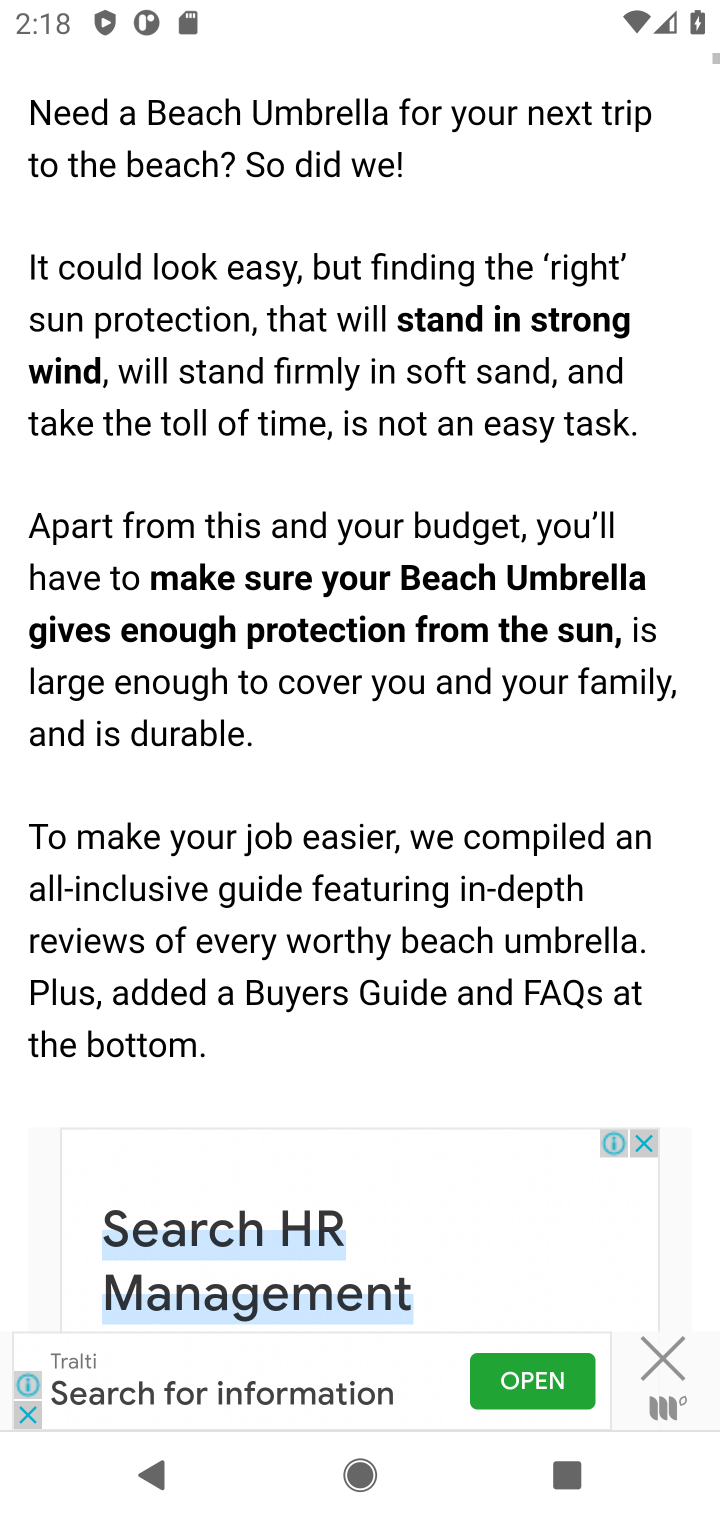
Step 31: click (439, 446)
Your task to perform on an android device: Where can I buy a nice beach umbrella? Image 32: 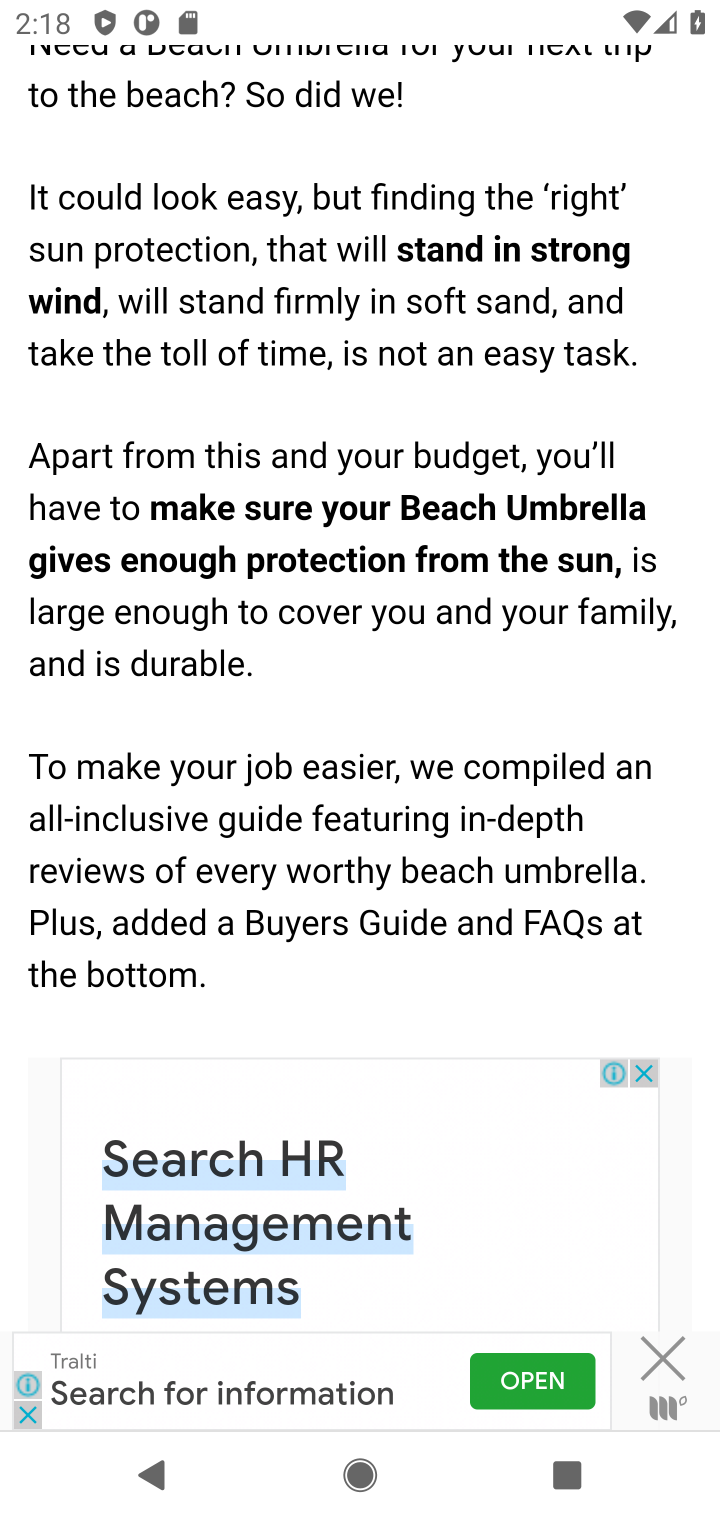
Step 32: drag from (399, 668) to (431, 441)
Your task to perform on an android device: Where can I buy a nice beach umbrella? Image 33: 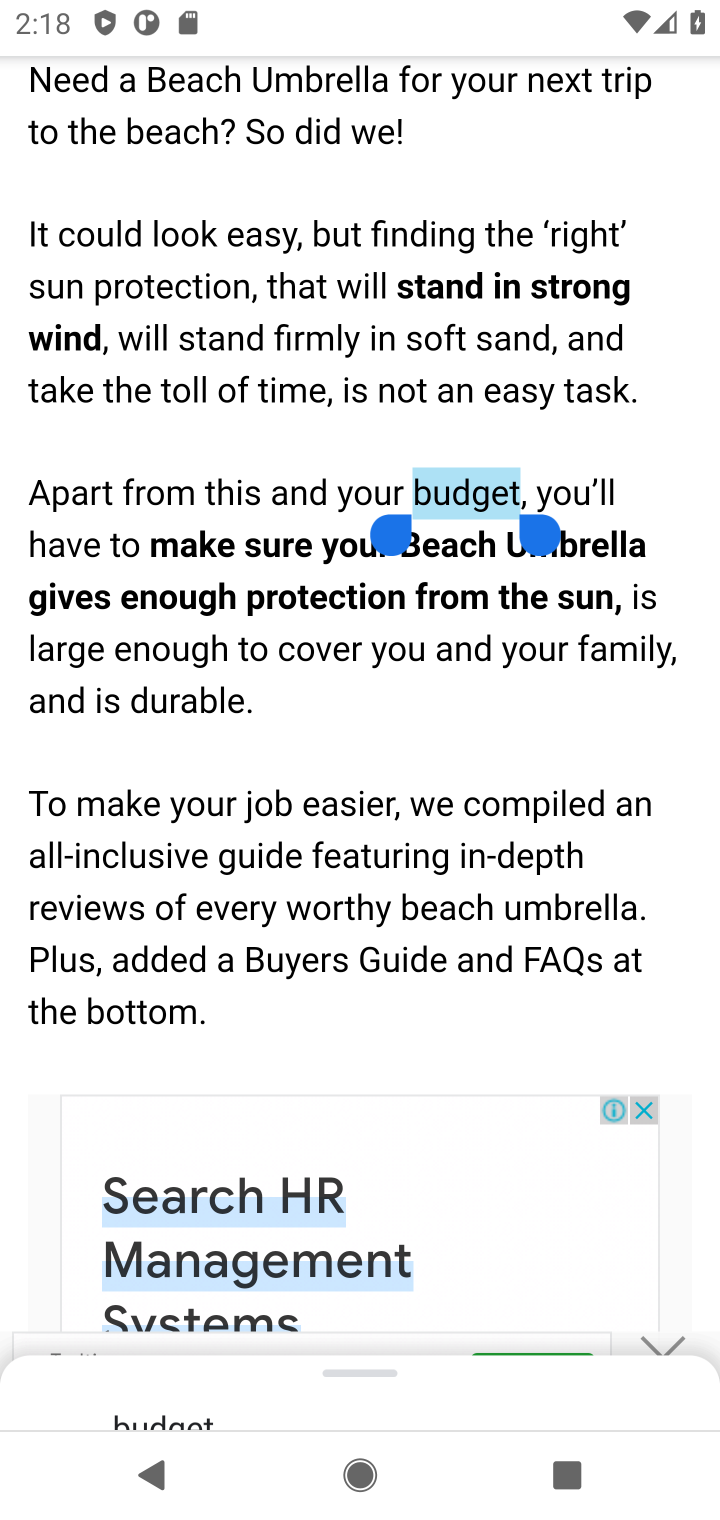
Step 33: drag from (419, 479) to (436, 366)
Your task to perform on an android device: Where can I buy a nice beach umbrella? Image 34: 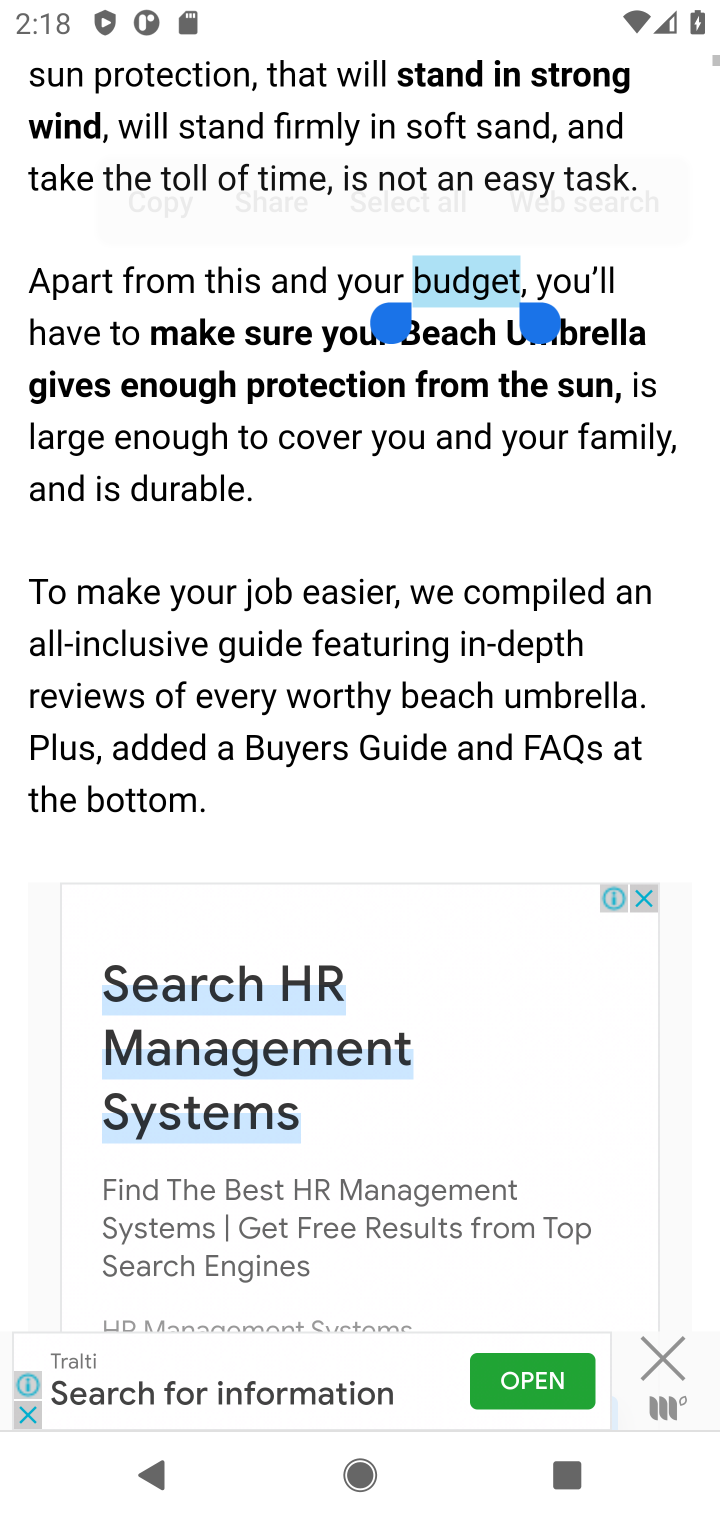
Step 34: drag from (418, 925) to (461, 514)
Your task to perform on an android device: Where can I buy a nice beach umbrella? Image 35: 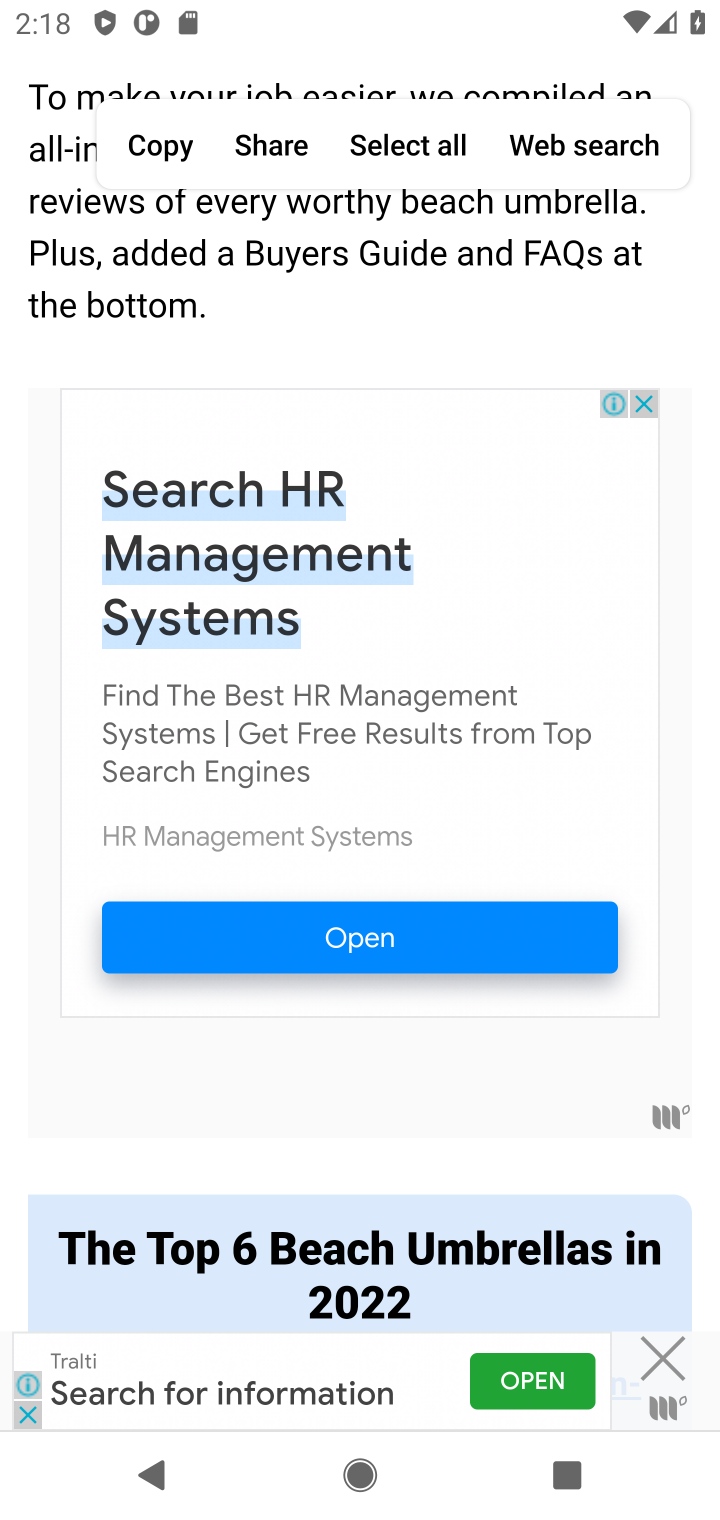
Step 35: click (643, 1362)
Your task to perform on an android device: Where can I buy a nice beach umbrella? Image 36: 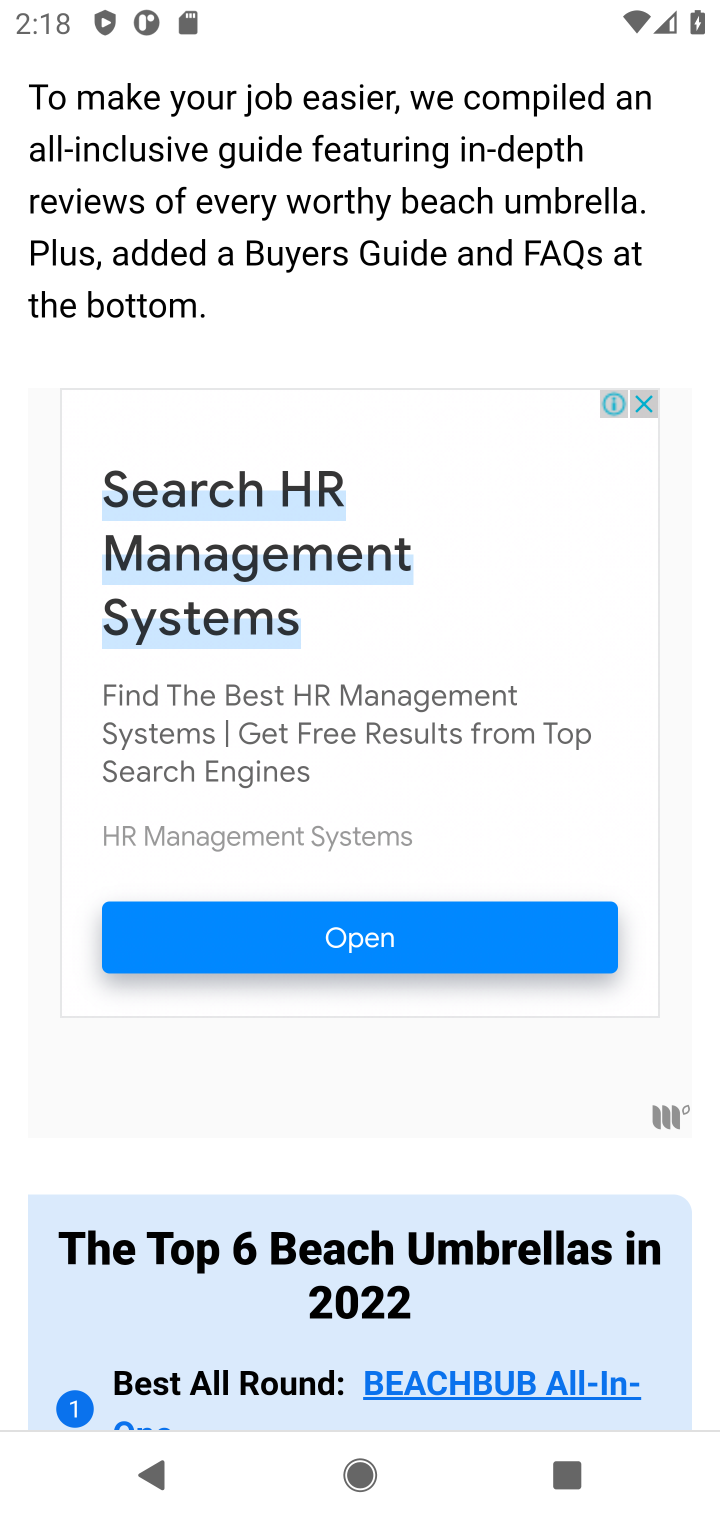
Step 36: drag from (489, 1028) to (642, 104)
Your task to perform on an android device: Where can I buy a nice beach umbrella? Image 37: 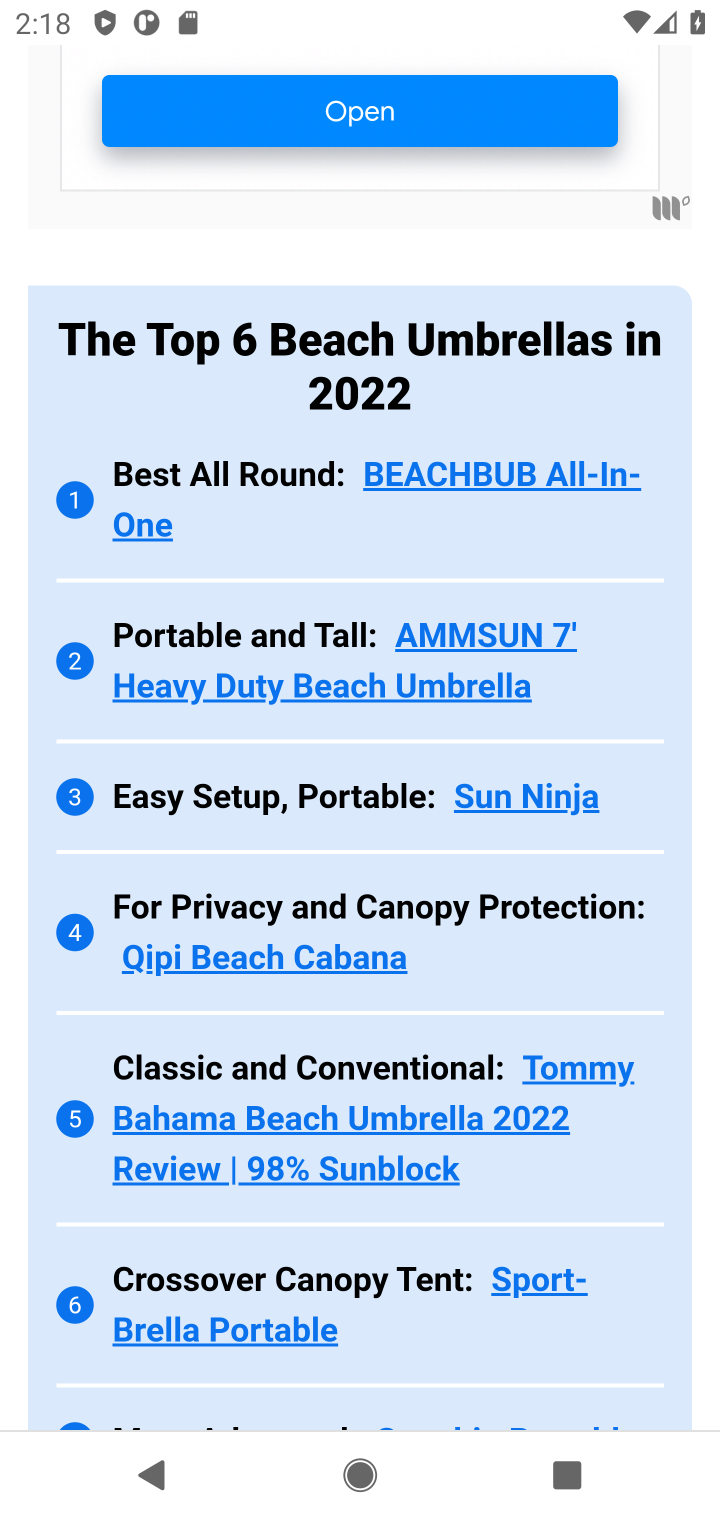
Step 37: drag from (611, 305) to (483, 1322)
Your task to perform on an android device: Where can I buy a nice beach umbrella? Image 38: 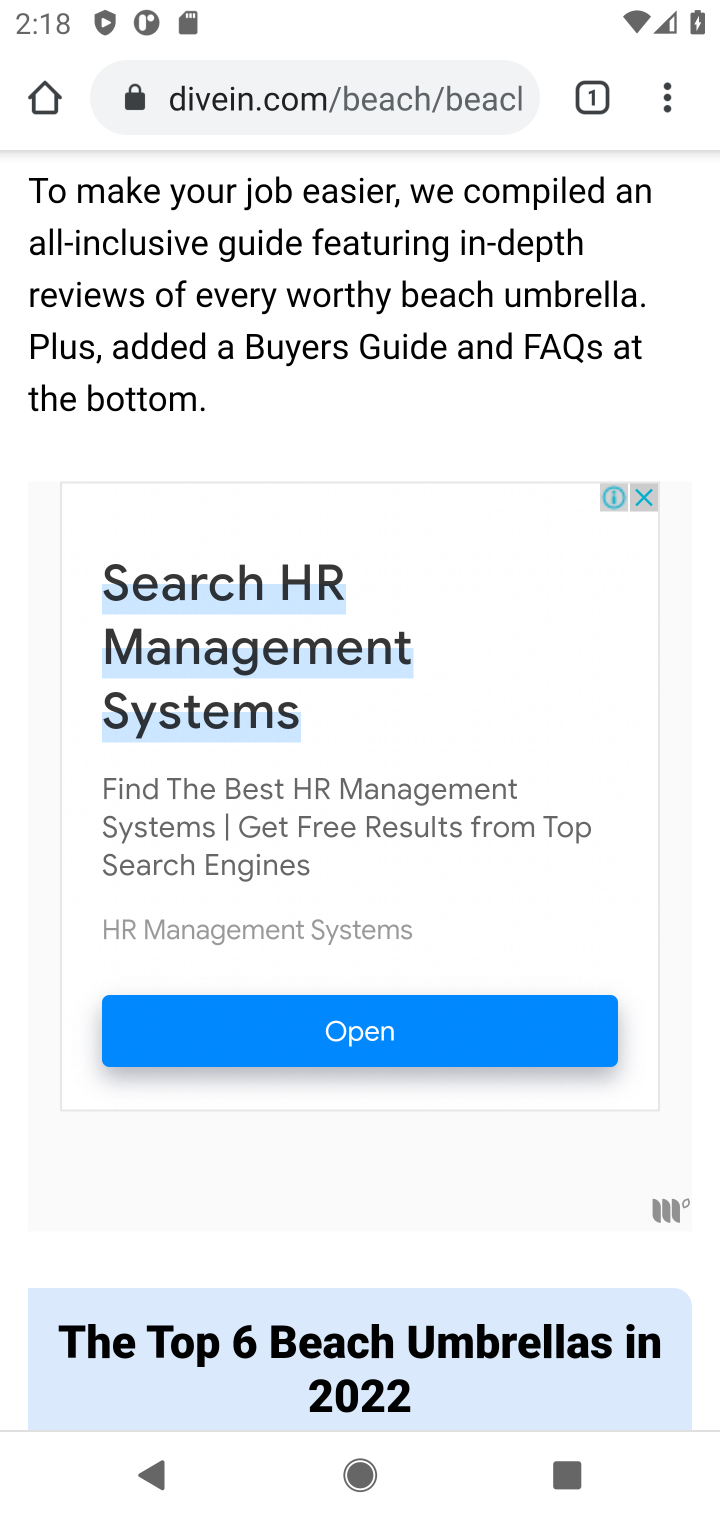
Step 38: press back button
Your task to perform on an android device: Where can I buy a nice beach umbrella? Image 39: 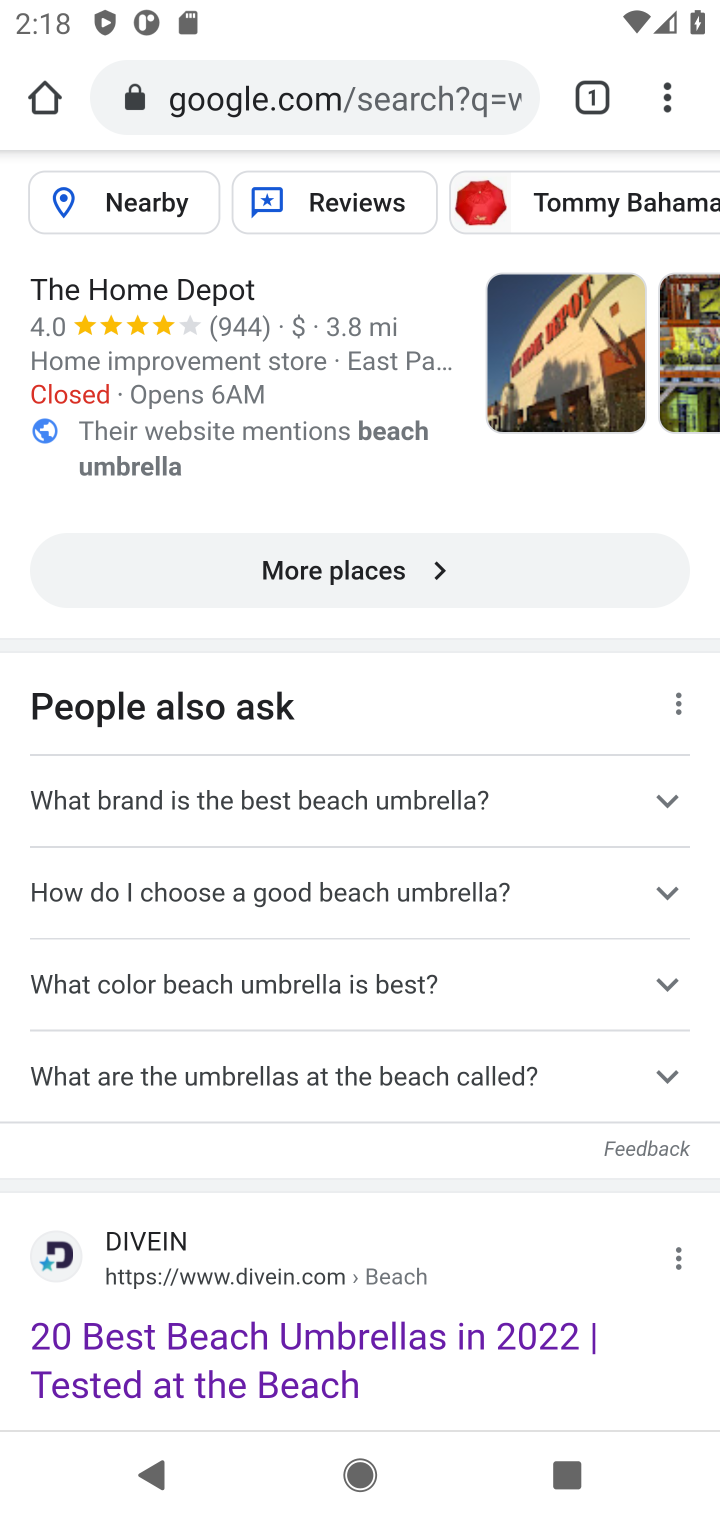
Step 39: drag from (449, 758) to (385, 312)
Your task to perform on an android device: Where can I buy a nice beach umbrella? Image 40: 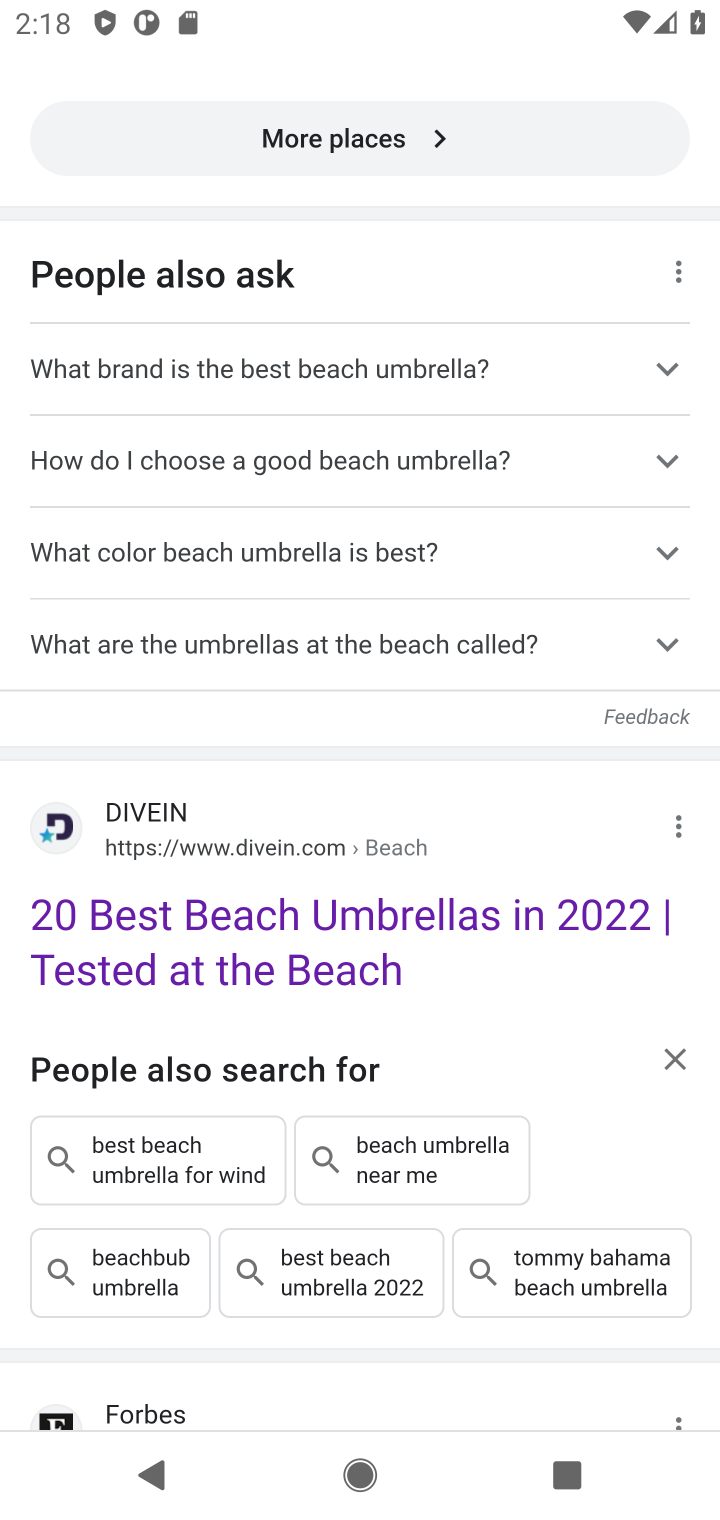
Step 40: drag from (304, 1167) to (378, 523)
Your task to perform on an android device: Where can I buy a nice beach umbrella? Image 41: 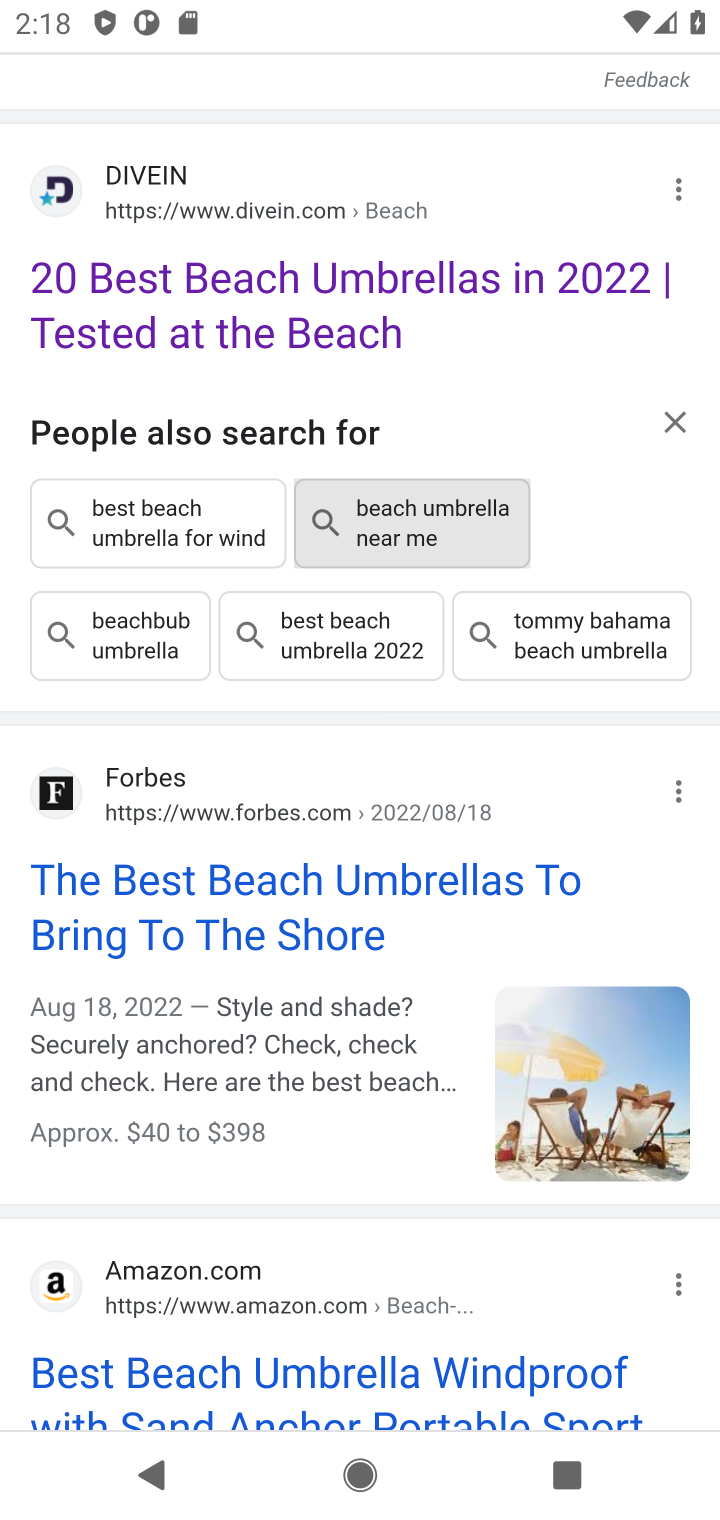
Step 41: click (339, 926)
Your task to perform on an android device: Where can I buy a nice beach umbrella? Image 42: 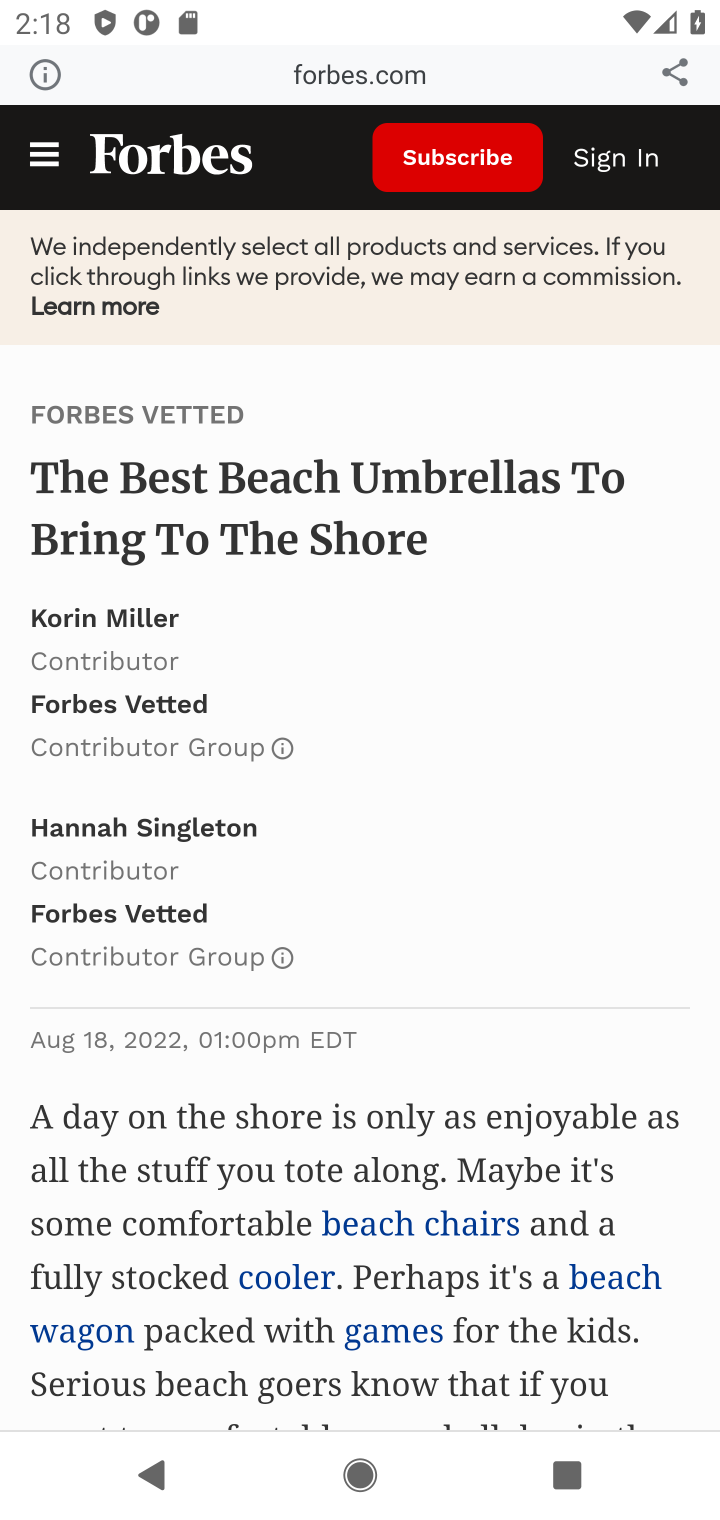
Step 42: task complete